Your task to perform on an android device: Search for flights from Zurich to Buenos aires Image 0: 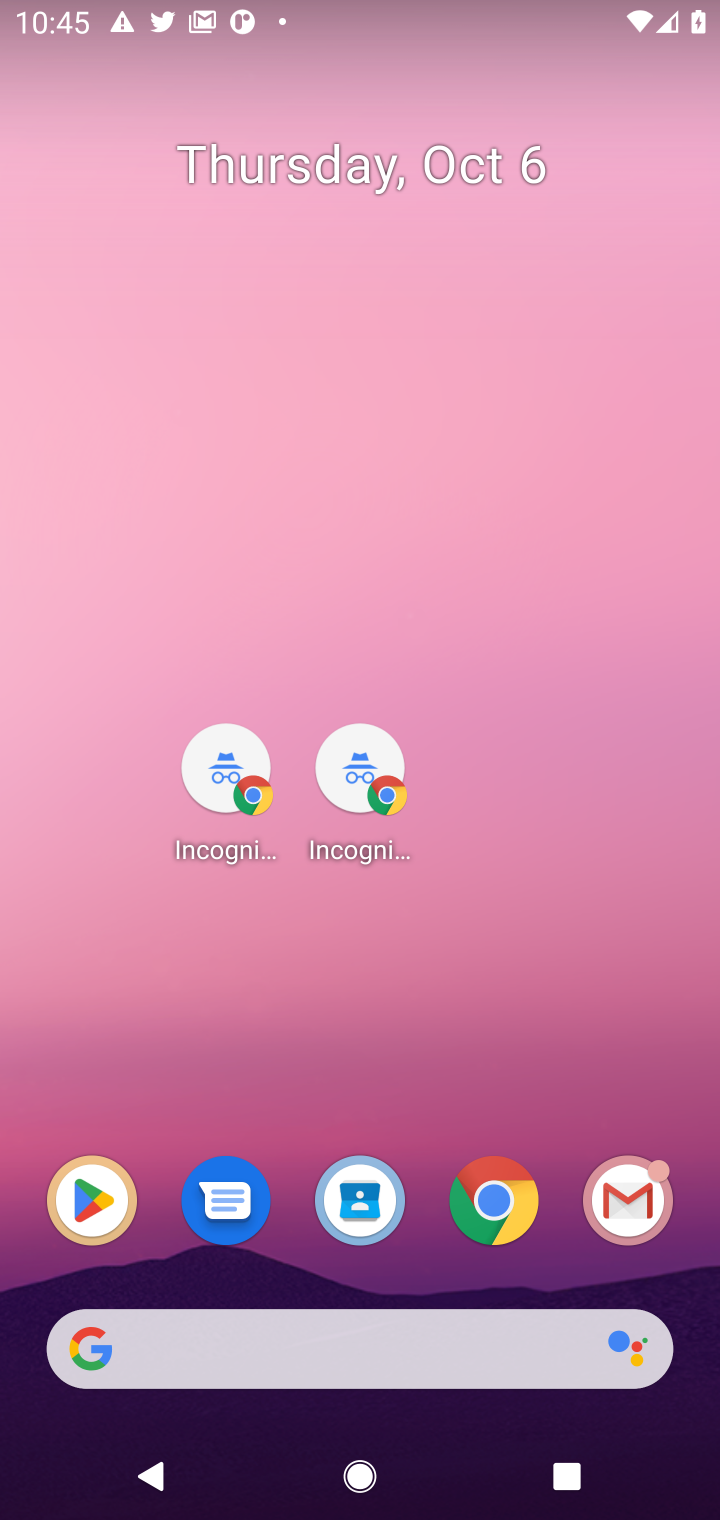
Step 0: click (510, 1198)
Your task to perform on an android device: Search for flights from Zurich to Buenos aires Image 1: 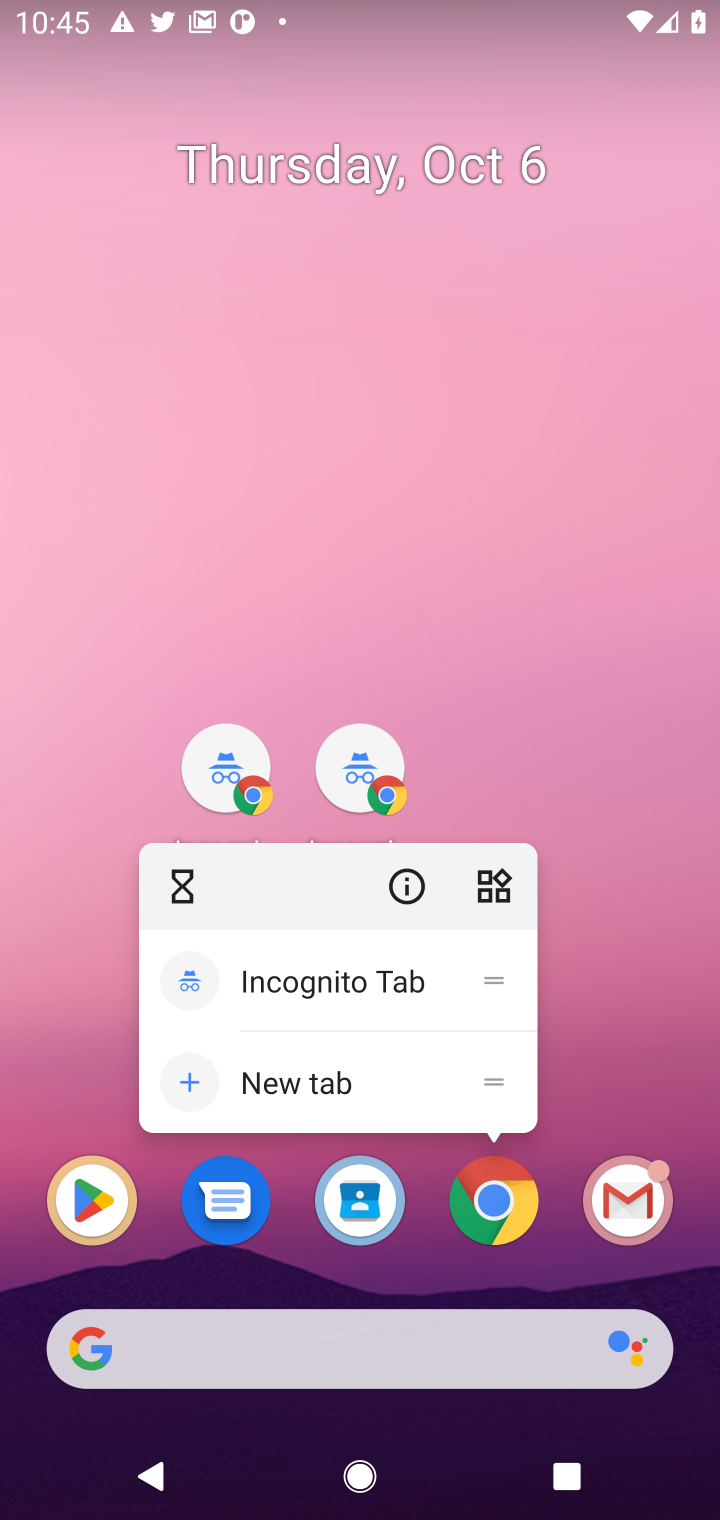
Step 1: press home button
Your task to perform on an android device: Search for flights from Zurich to Buenos aires Image 2: 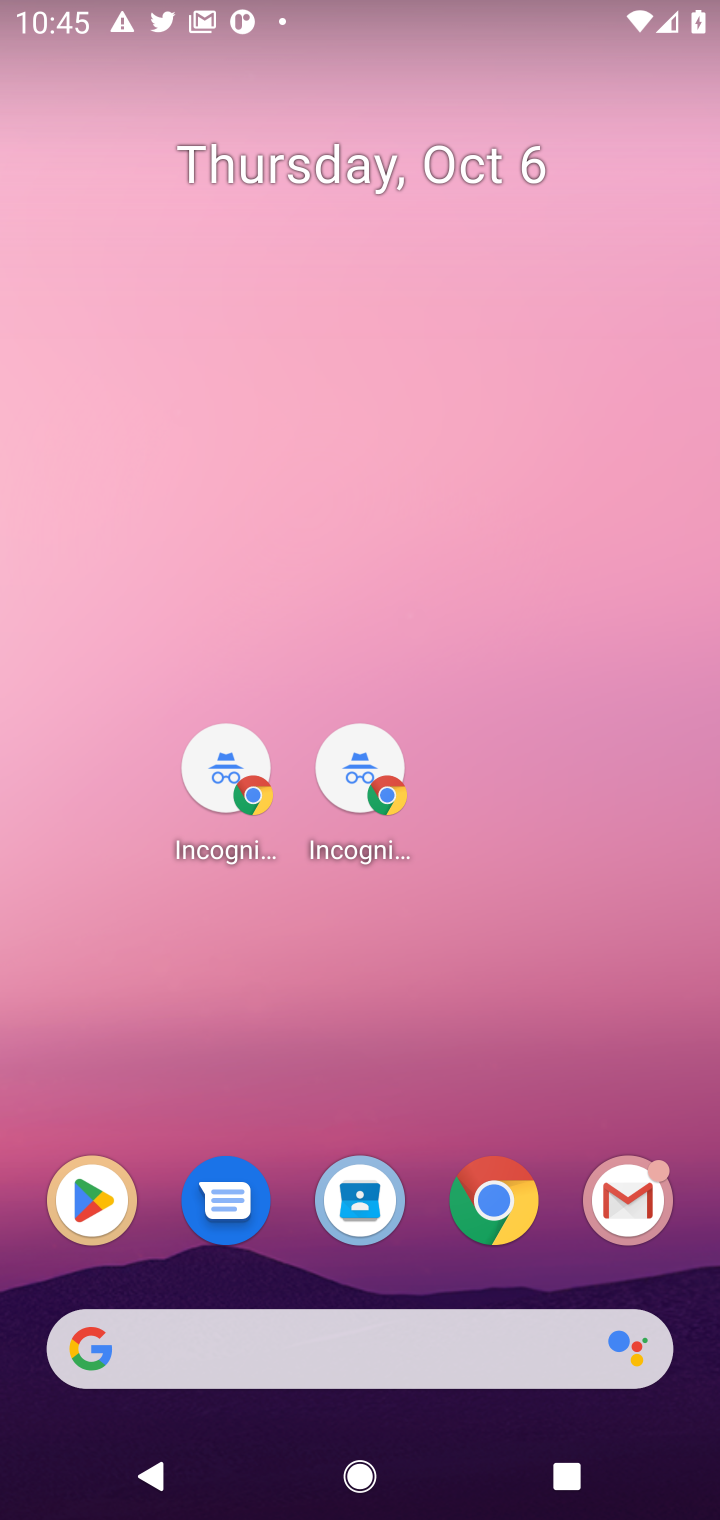
Step 2: press home button
Your task to perform on an android device: Search for flights from Zurich to Buenos aires Image 3: 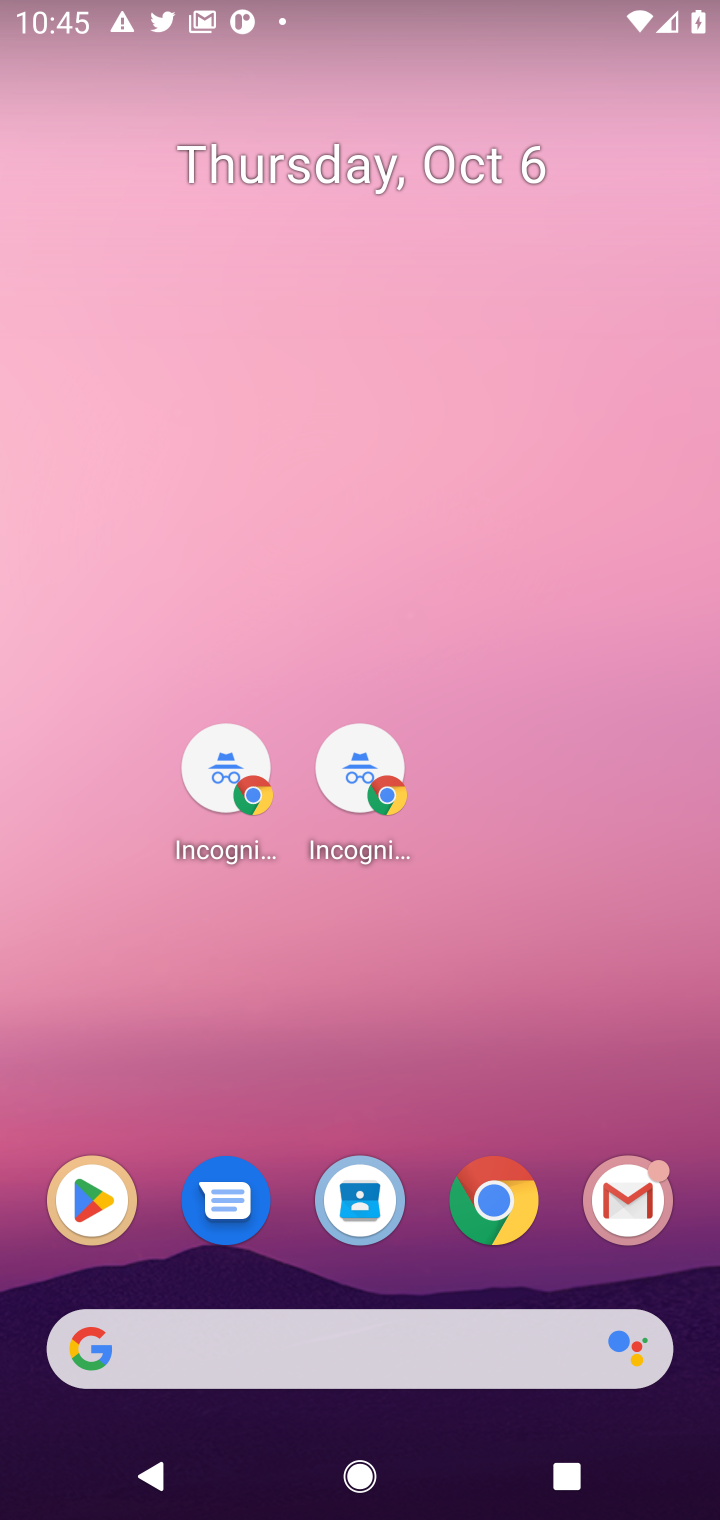
Step 3: click (476, 1242)
Your task to perform on an android device: Search for flights from Zurich to Buenos aires Image 4: 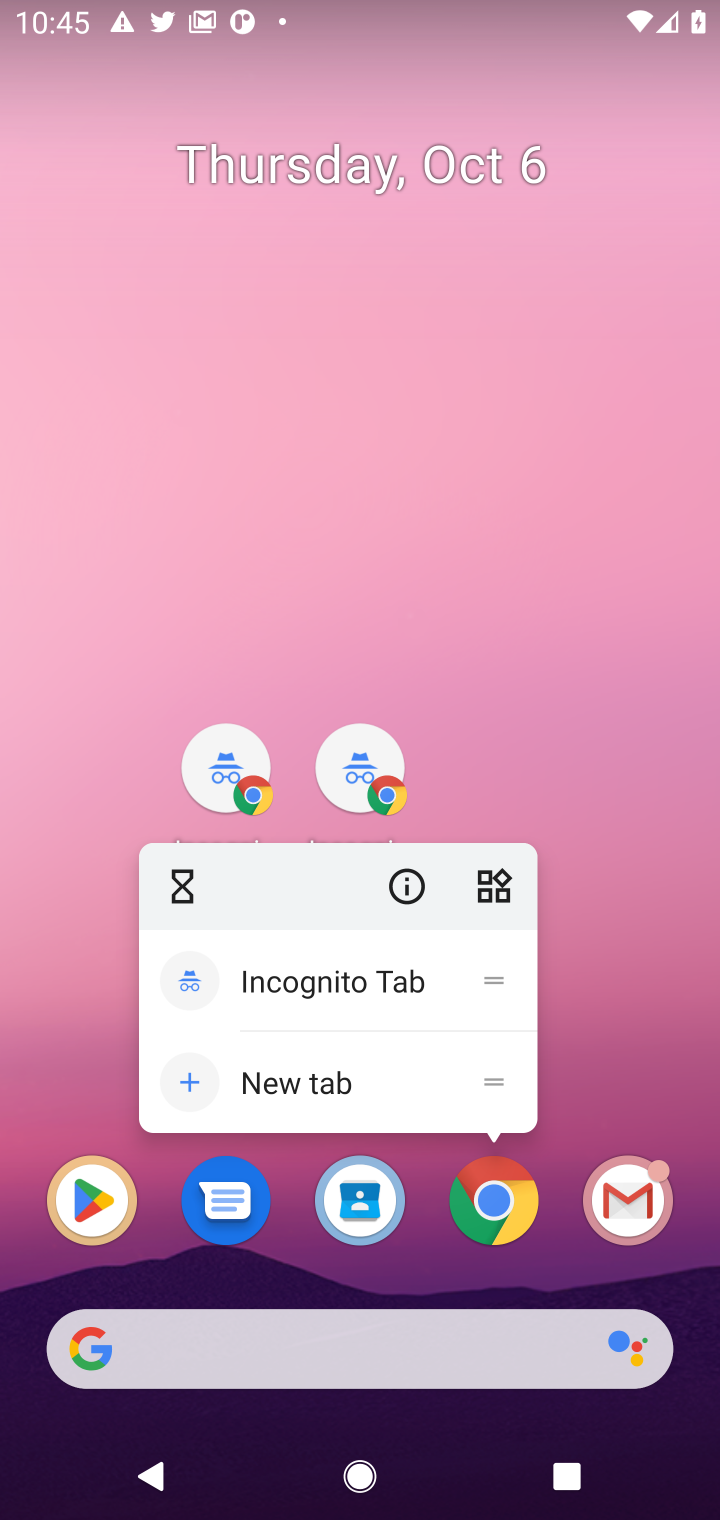
Step 4: press home button
Your task to perform on an android device: Search for flights from Zurich to Buenos aires Image 5: 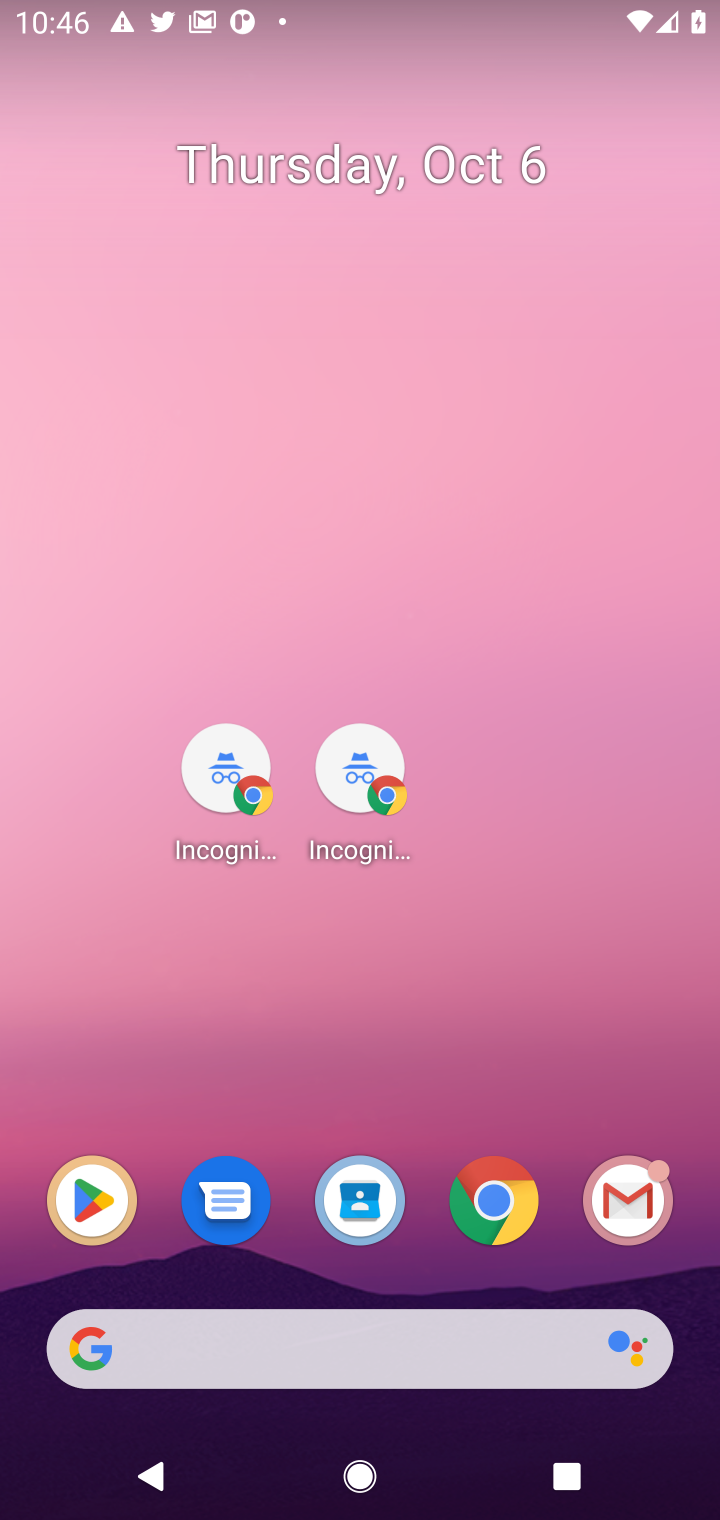
Step 5: click (491, 1184)
Your task to perform on an android device: Search for flights from Zurich to Buenos aires Image 6: 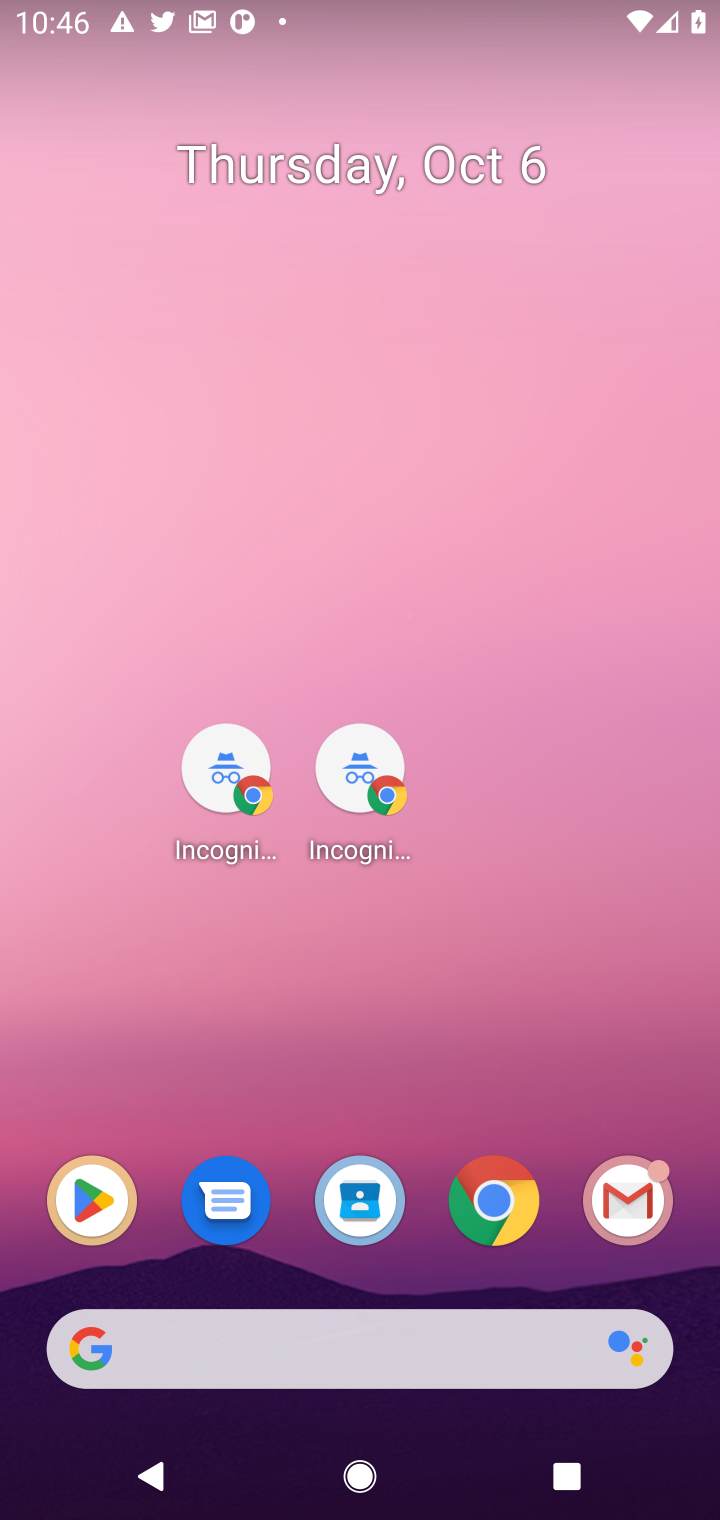
Step 6: click (499, 1184)
Your task to perform on an android device: Search for flights from Zurich to Buenos aires Image 7: 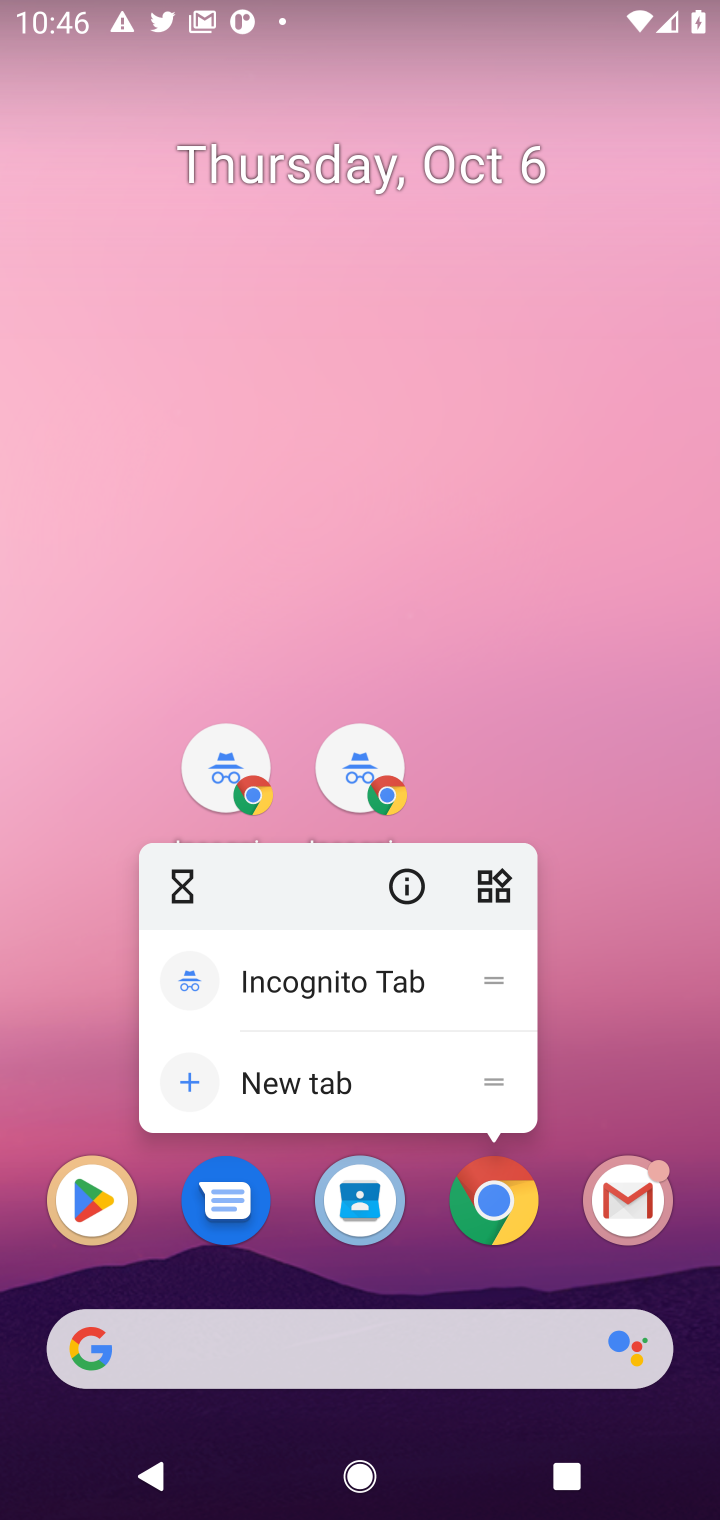
Step 7: press back button
Your task to perform on an android device: Search for flights from Zurich to Buenos aires Image 8: 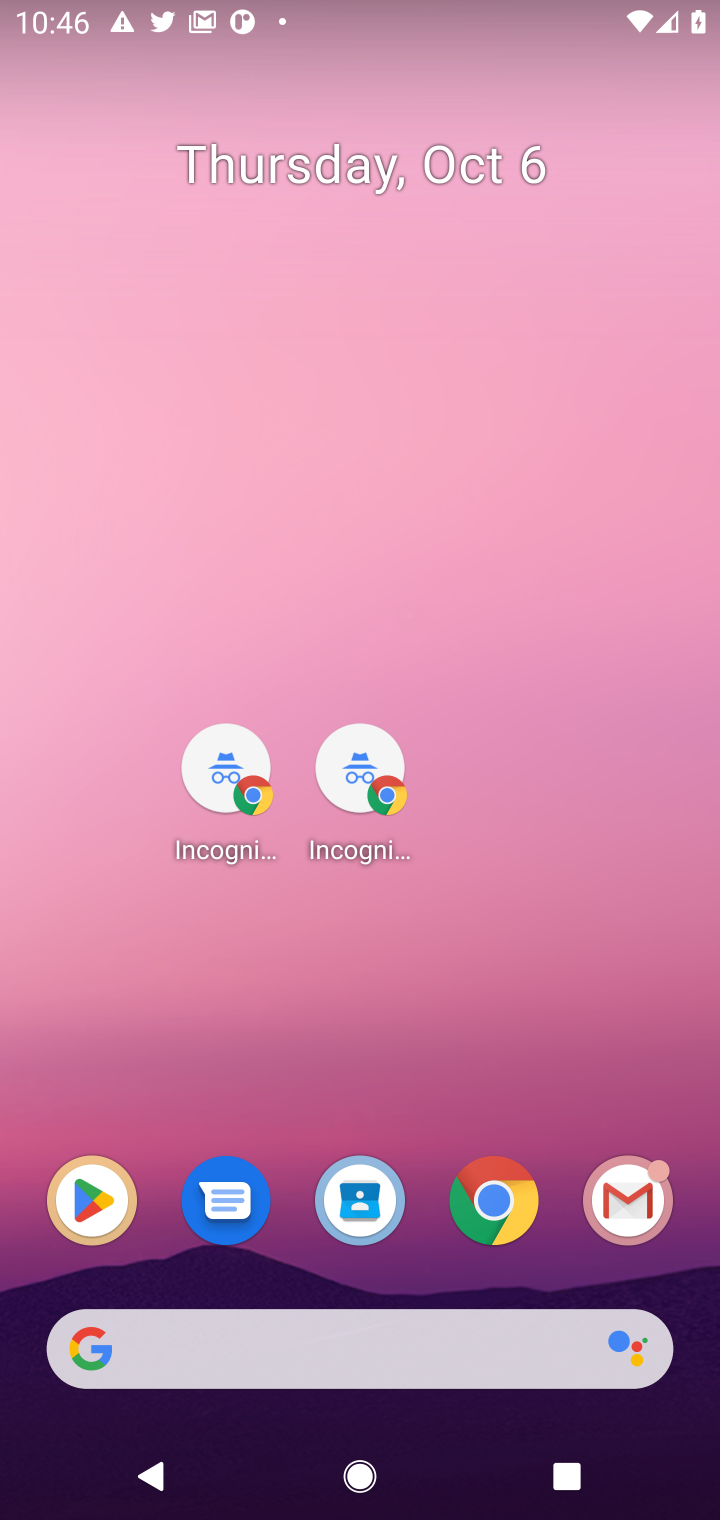
Step 8: press back button
Your task to perform on an android device: Search for flights from Zurich to Buenos aires Image 9: 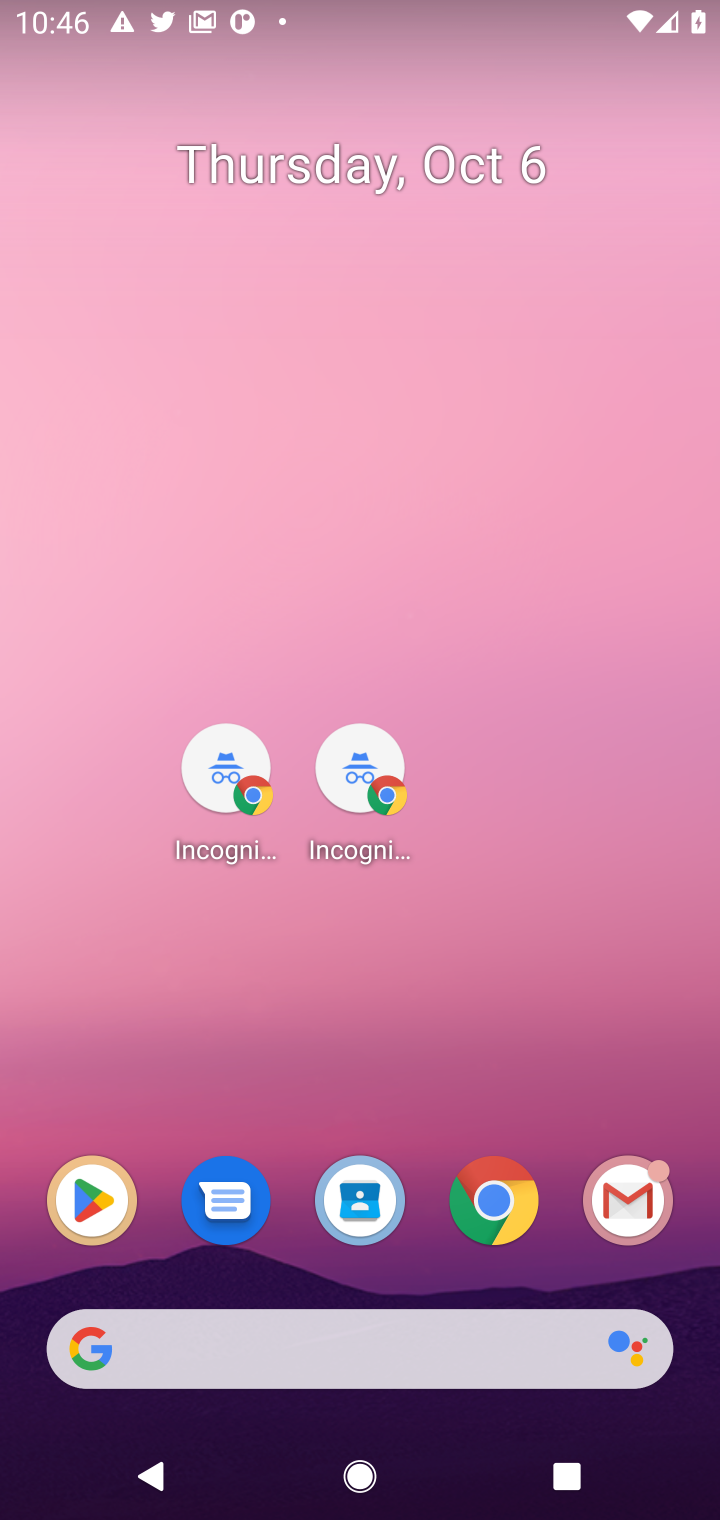
Step 9: press back button
Your task to perform on an android device: Search for flights from Zurich to Buenos aires Image 10: 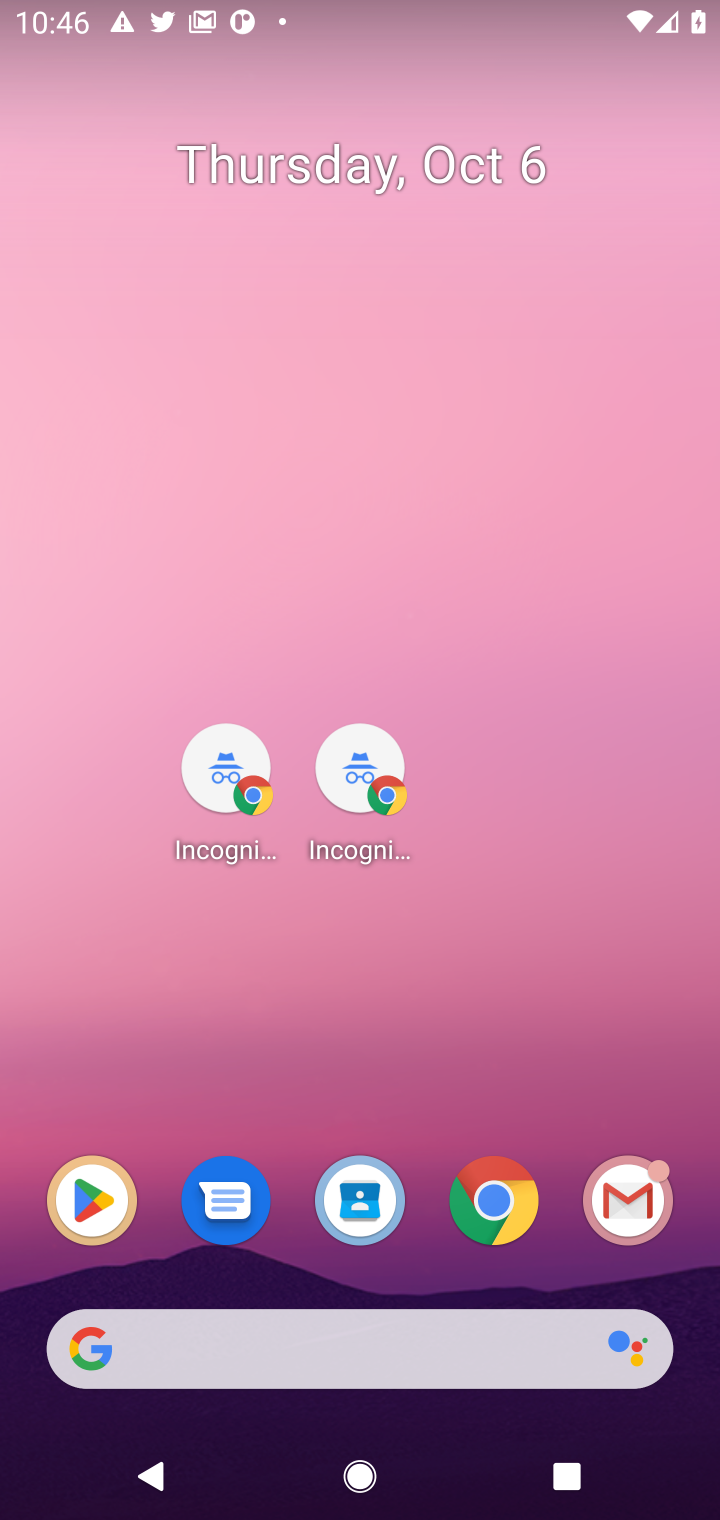
Step 10: click (485, 1232)
Your task to perform on an android device: Search for flights from Zurich to Buenos aires Image 11: 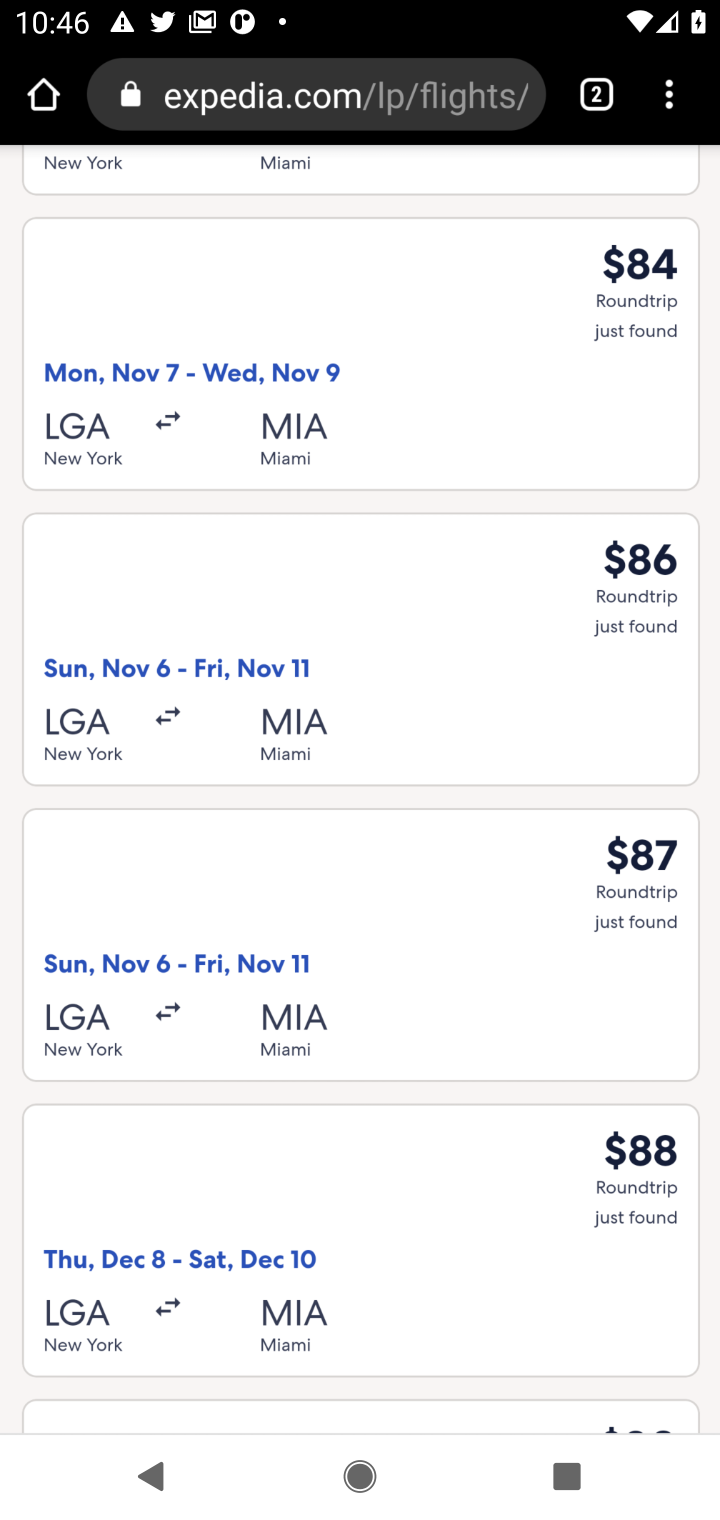
Step 11: click (487, 1231)
Your task to perform on an android device: Search for flights from Zurich to Buenos aires Image 12: 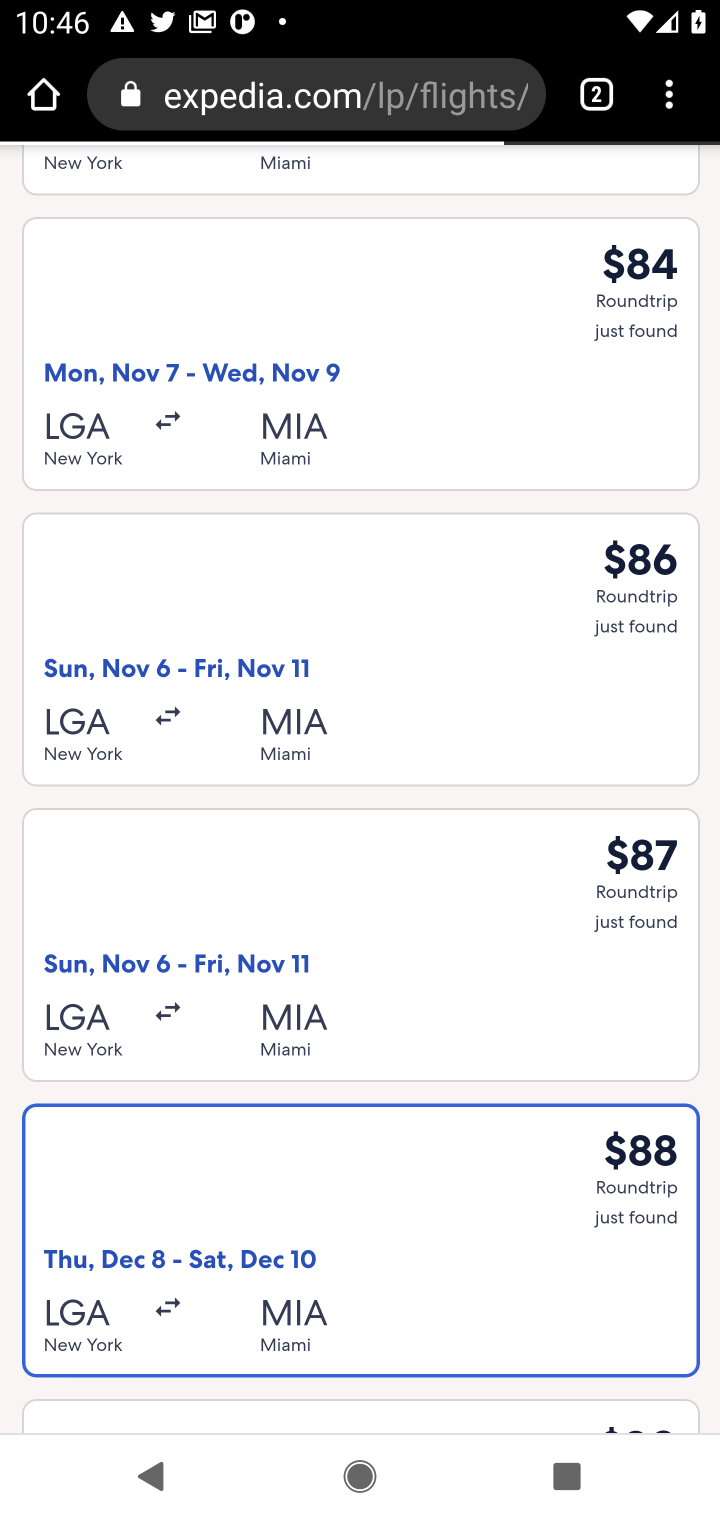
Step 12: click (368, 96)
Your task to perform on an android device: Search for flights from Zurich to Buenos aires Image 13: 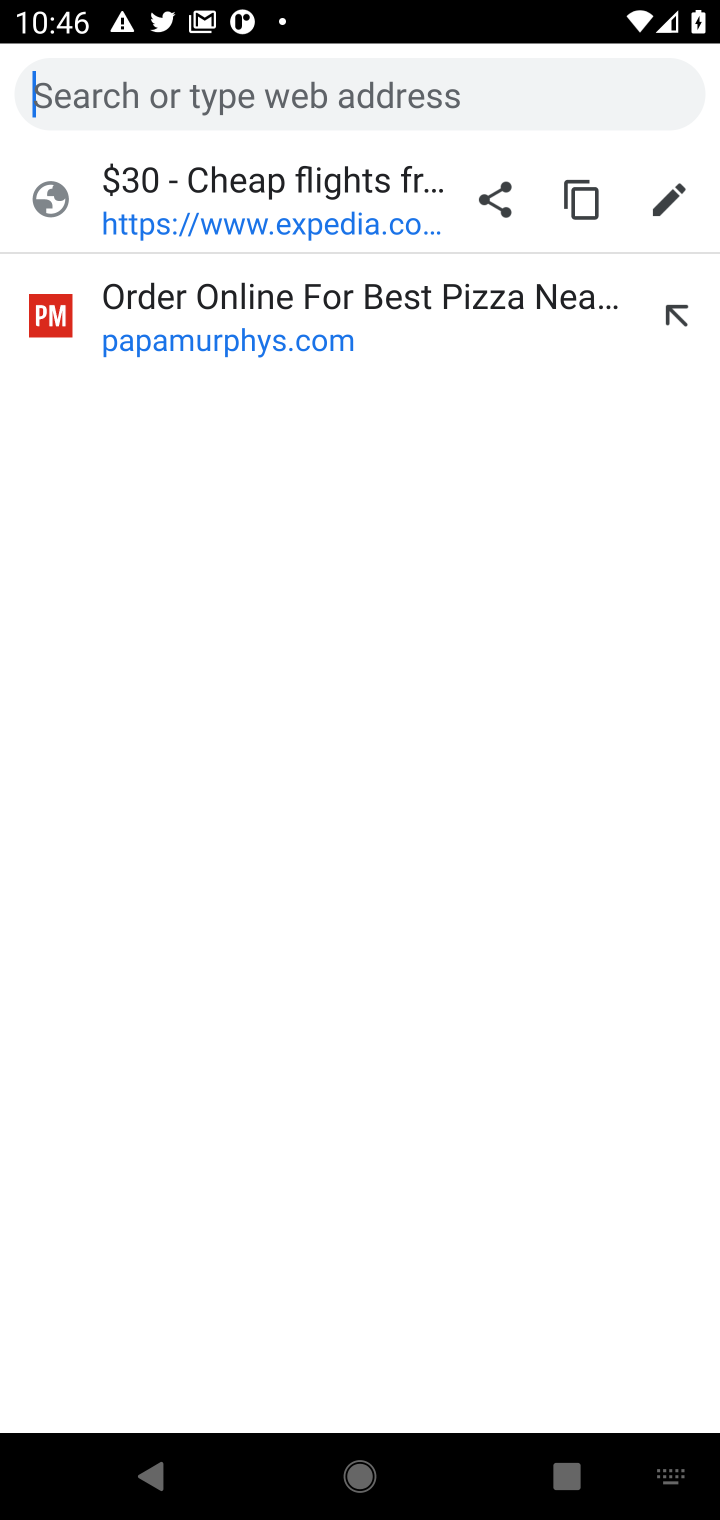
Step 13: type "flight from zurich to buenos aires"
Your task to perform on an android device: Search for flights from Zurich to Buenos aires Image 14: 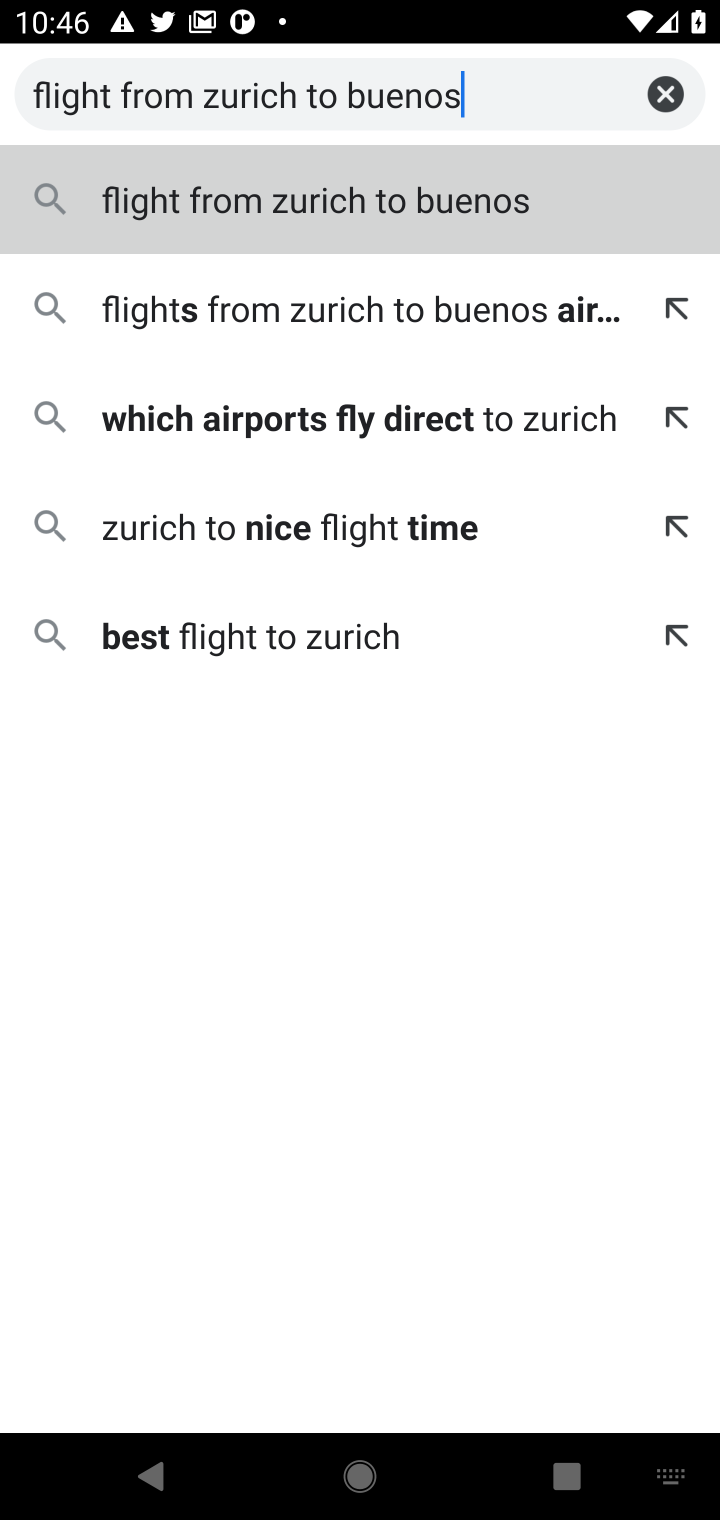
Step 14: click (302, 319)
Your task to perform on an android device: Search for flights from Zurich to Buenos aires Image 15: 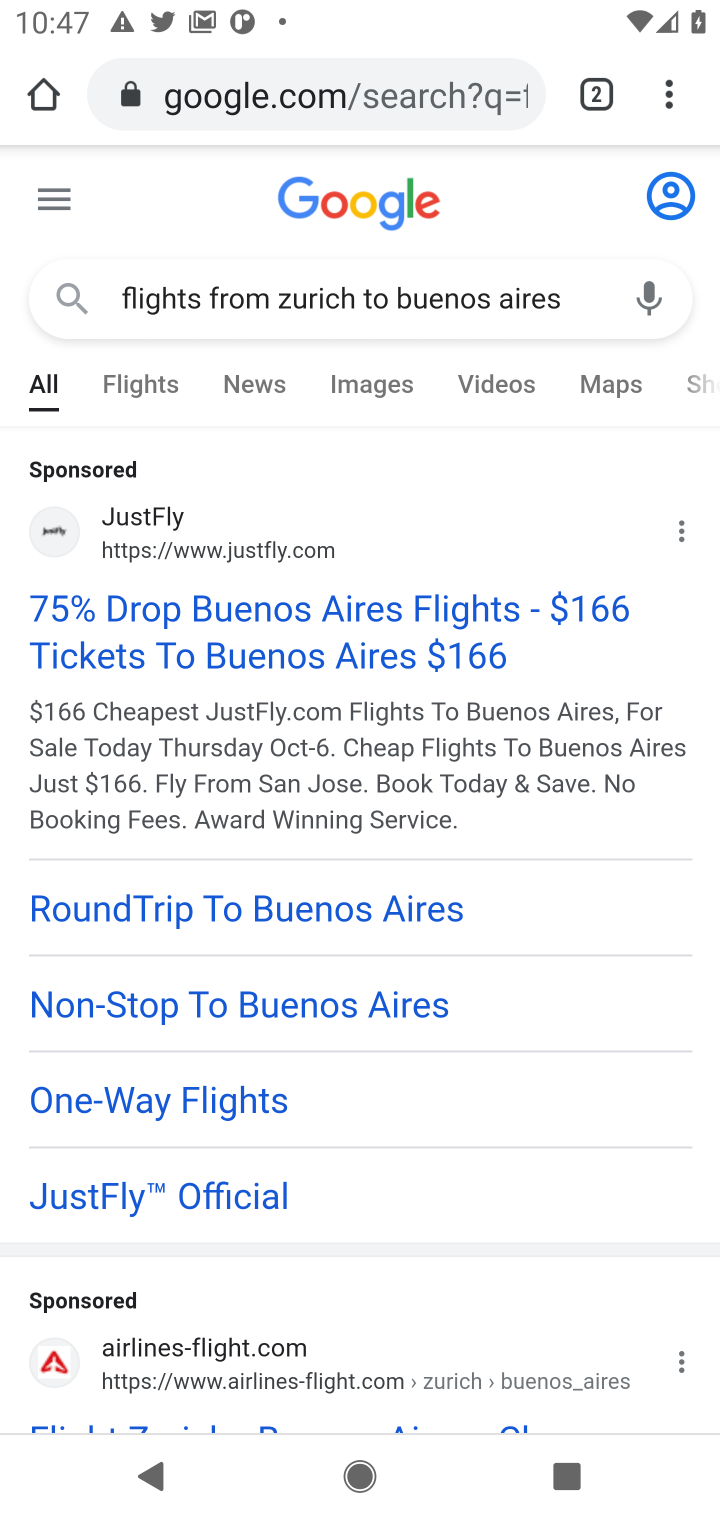
Step 15: click (147, 1341)
Your task to perform on an android device: Search for flights from Zurich to Buenos aires Image 16: 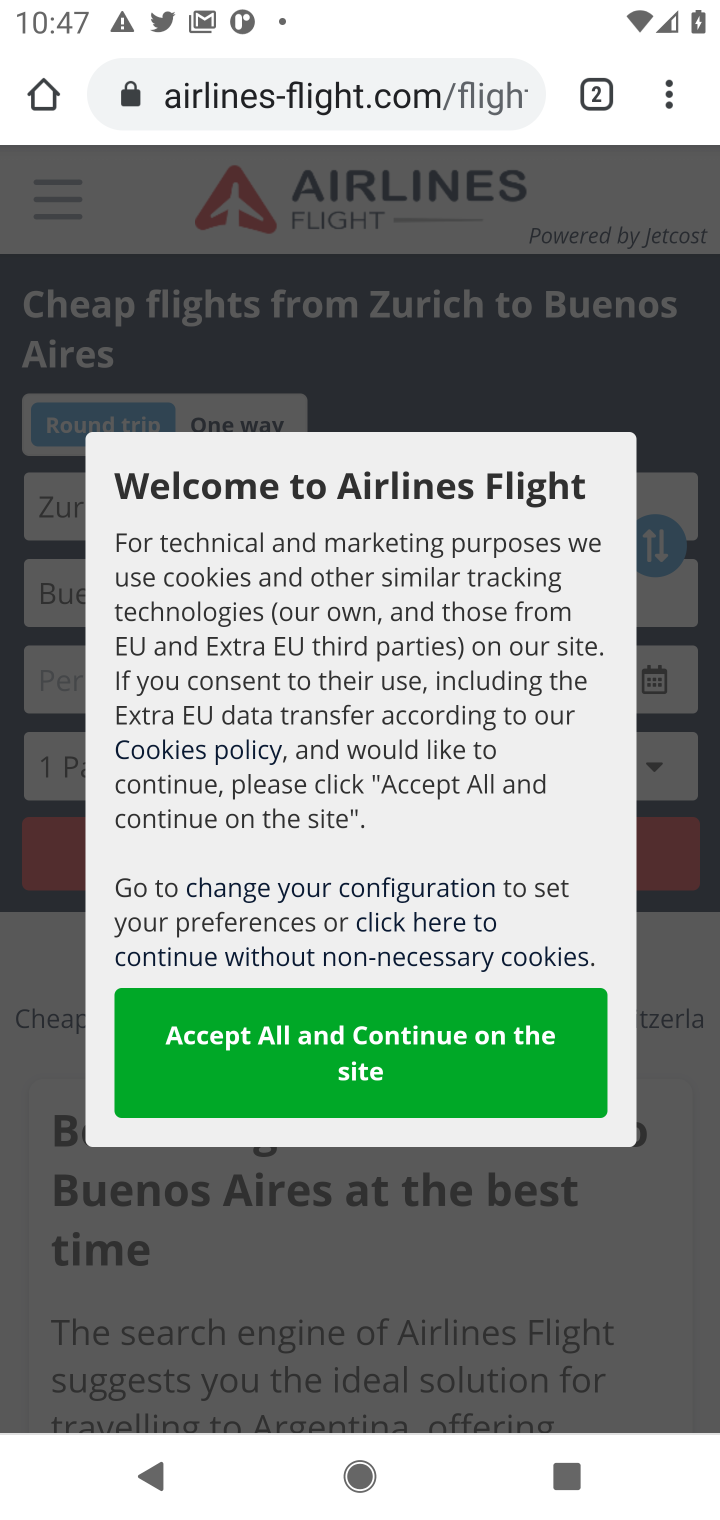
Step 16: click (392, 1055)
Your task to perform on an android device: Search for flights from Zurich to Buenos aires Image 17: 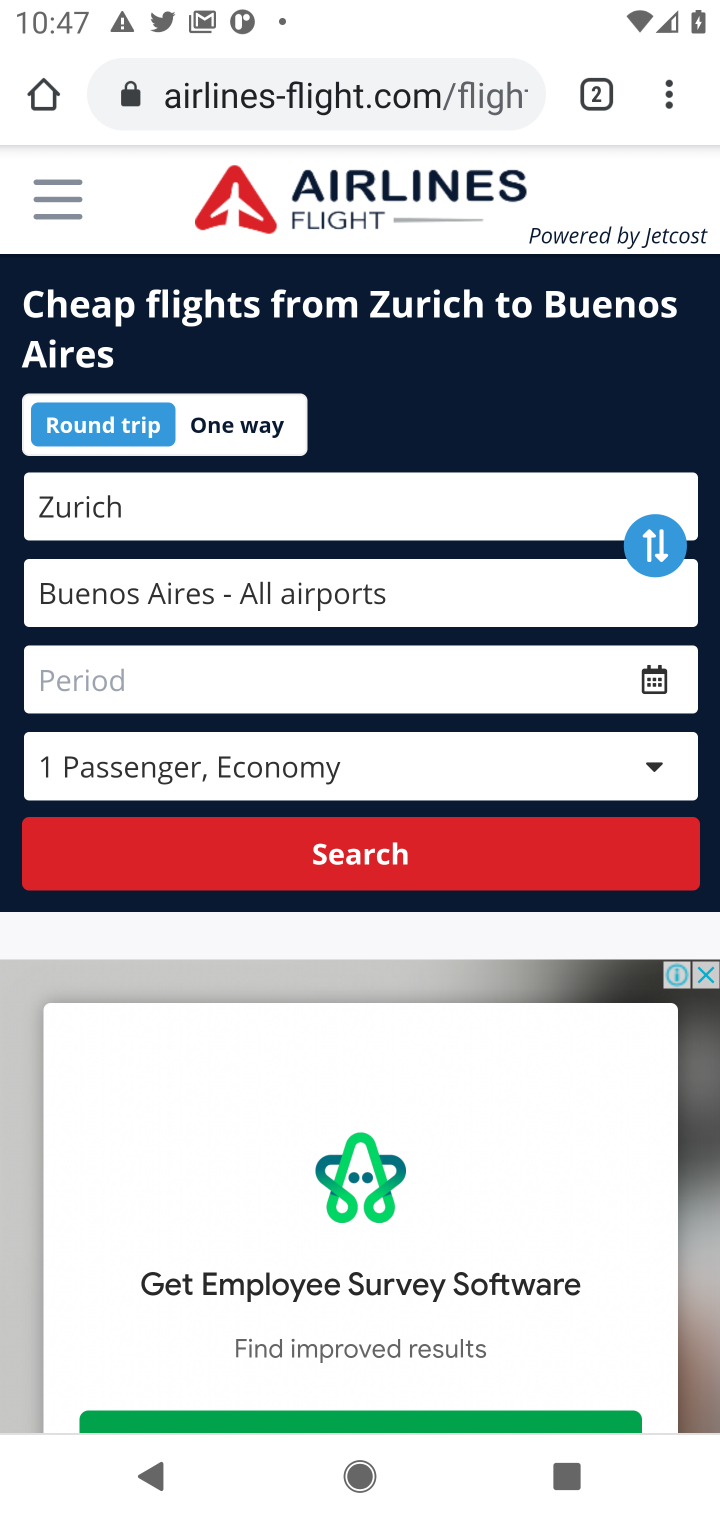
Step 17: click (93, 504)
Your task to perform on an android device: Search for flights from Zurich to Buenos aires Image 18: 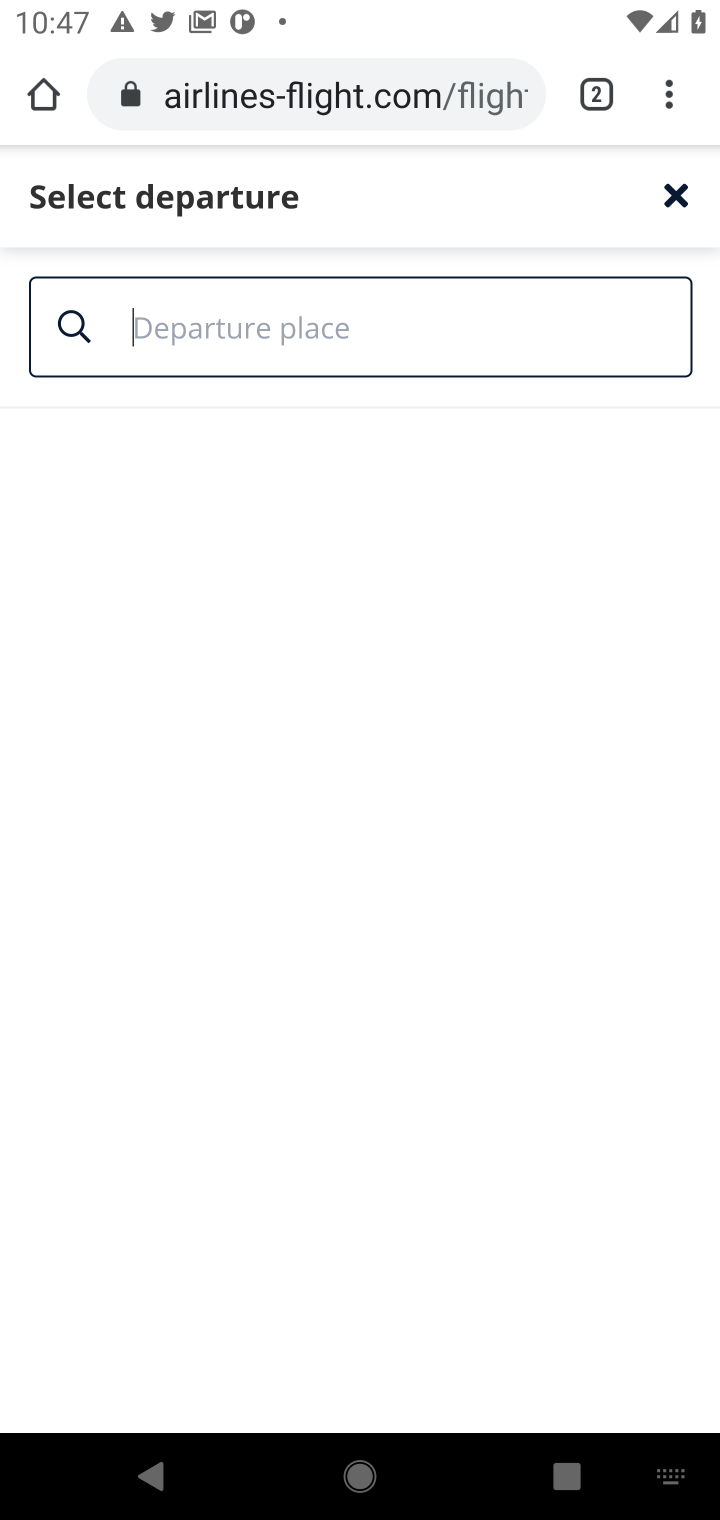
Step 18: click (671, 186)
Your task to perform on an android device: Search for flights from Zurich to Buenos aires Image 19: 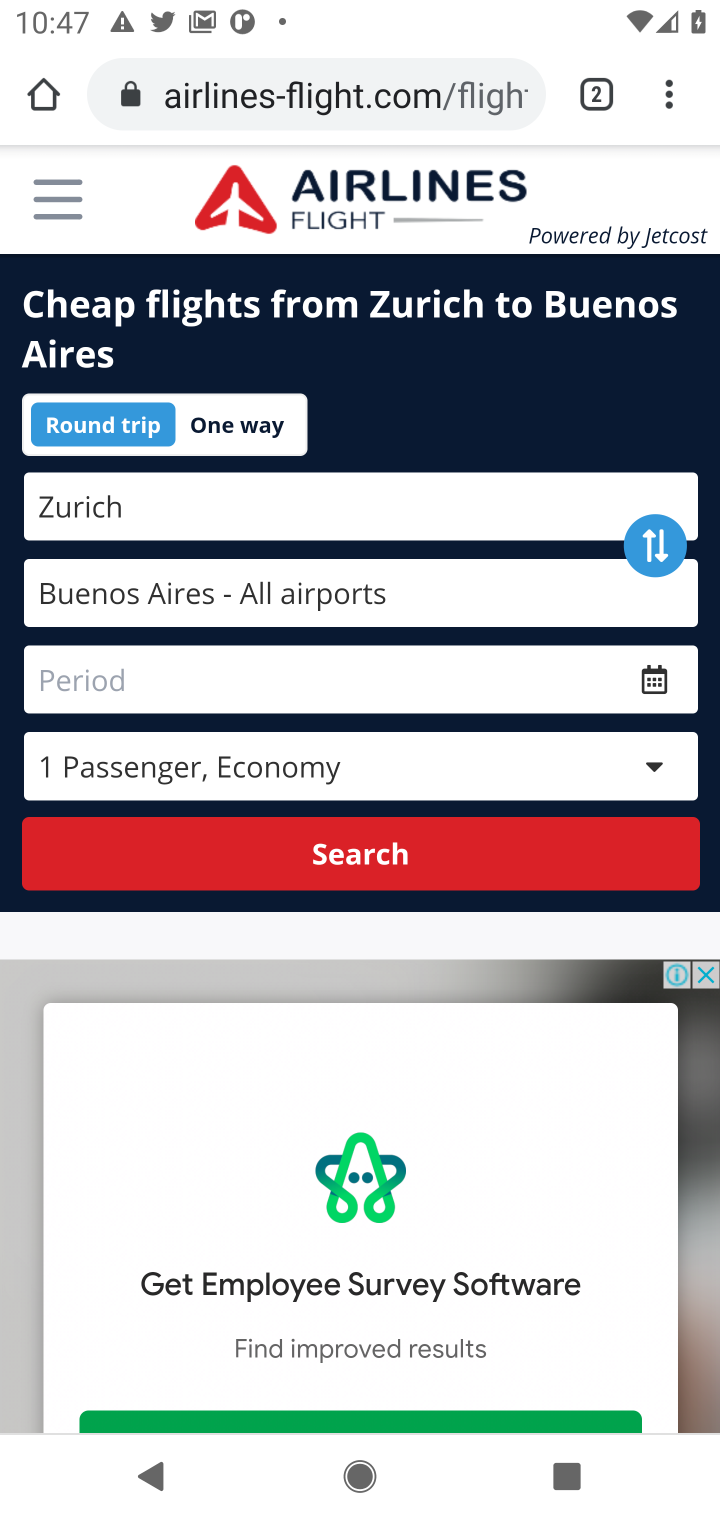
Step 19: click (644, 758)
Your task to perform on an android device: Search for flights from Zurich to Buenos aires Image 20: 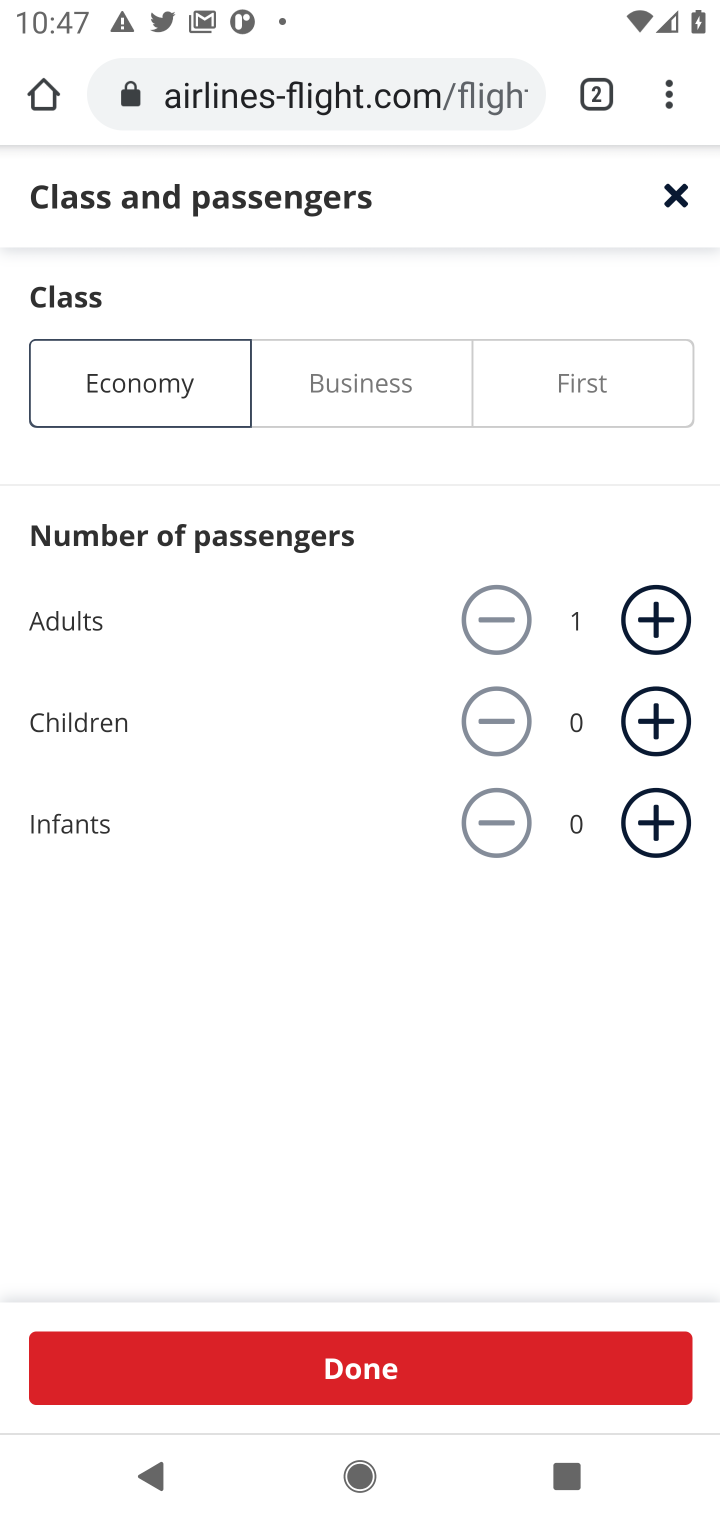
Step 20: click (654, 611)
Your task to perform on an android device: Search for flights from Zurich to Buenos aires Image 21: 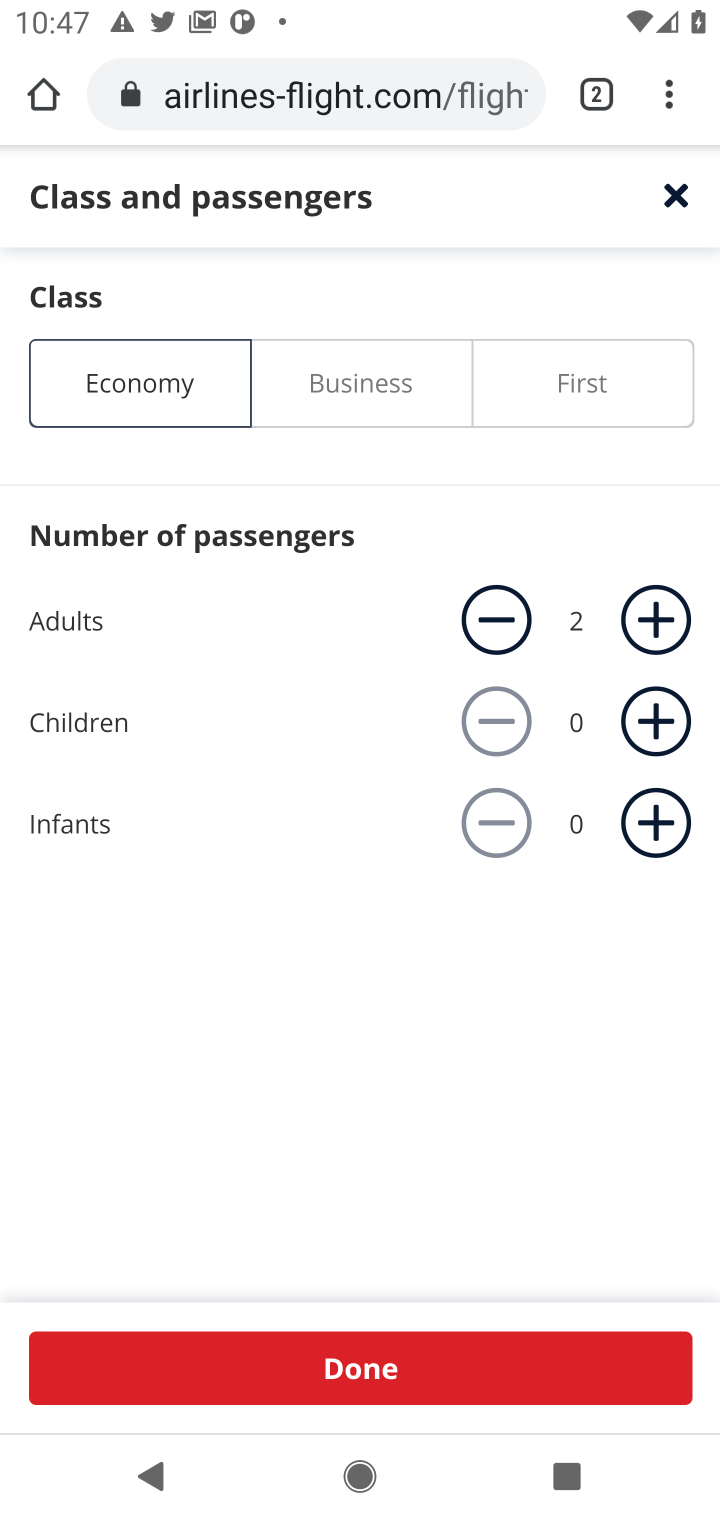
Step 21: click (369, 1365)
Your task to perform on an android device: Search for flights from Zurich to Buenos aires Image 22: 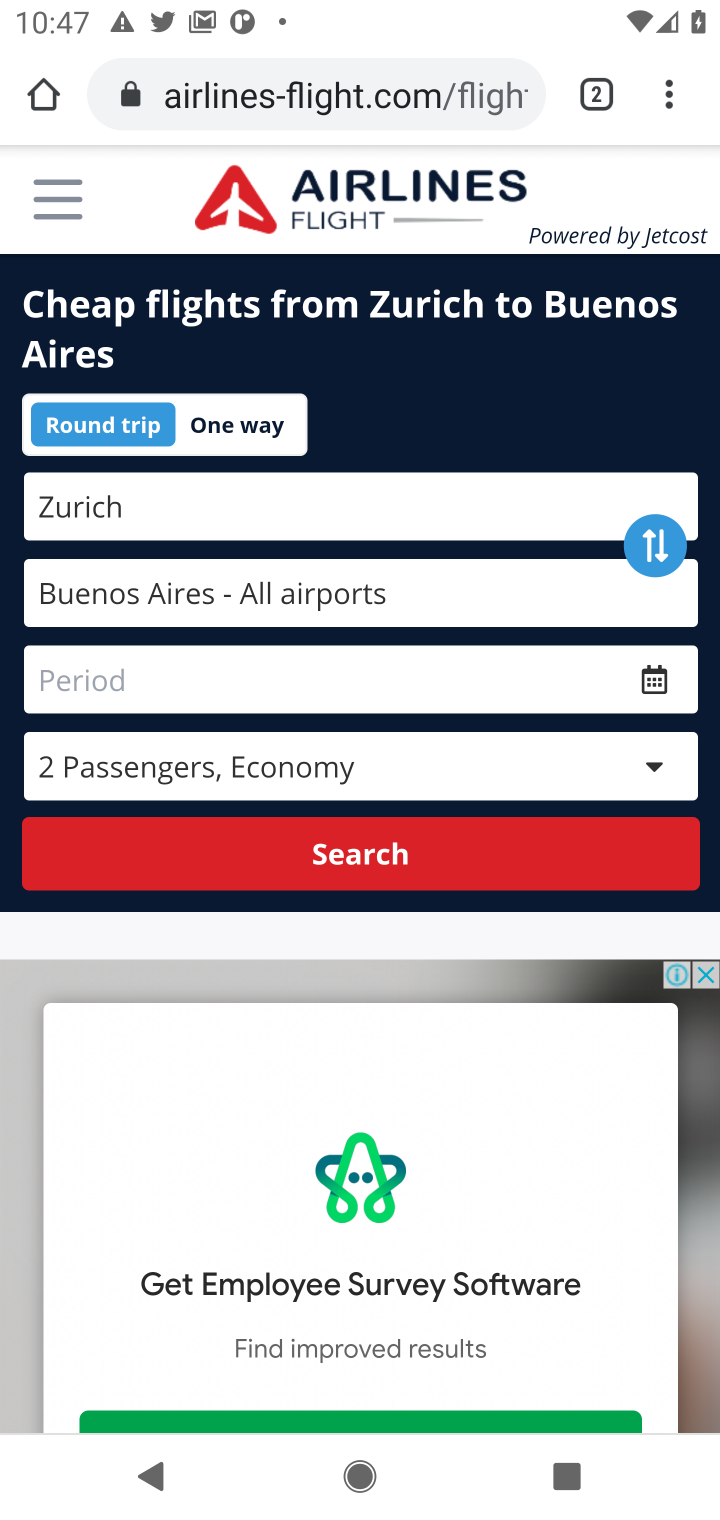
Step 22: click (710, 975)
Your task to perform on an android device: Search for flights from Zurich to Buenos aires Image 23: 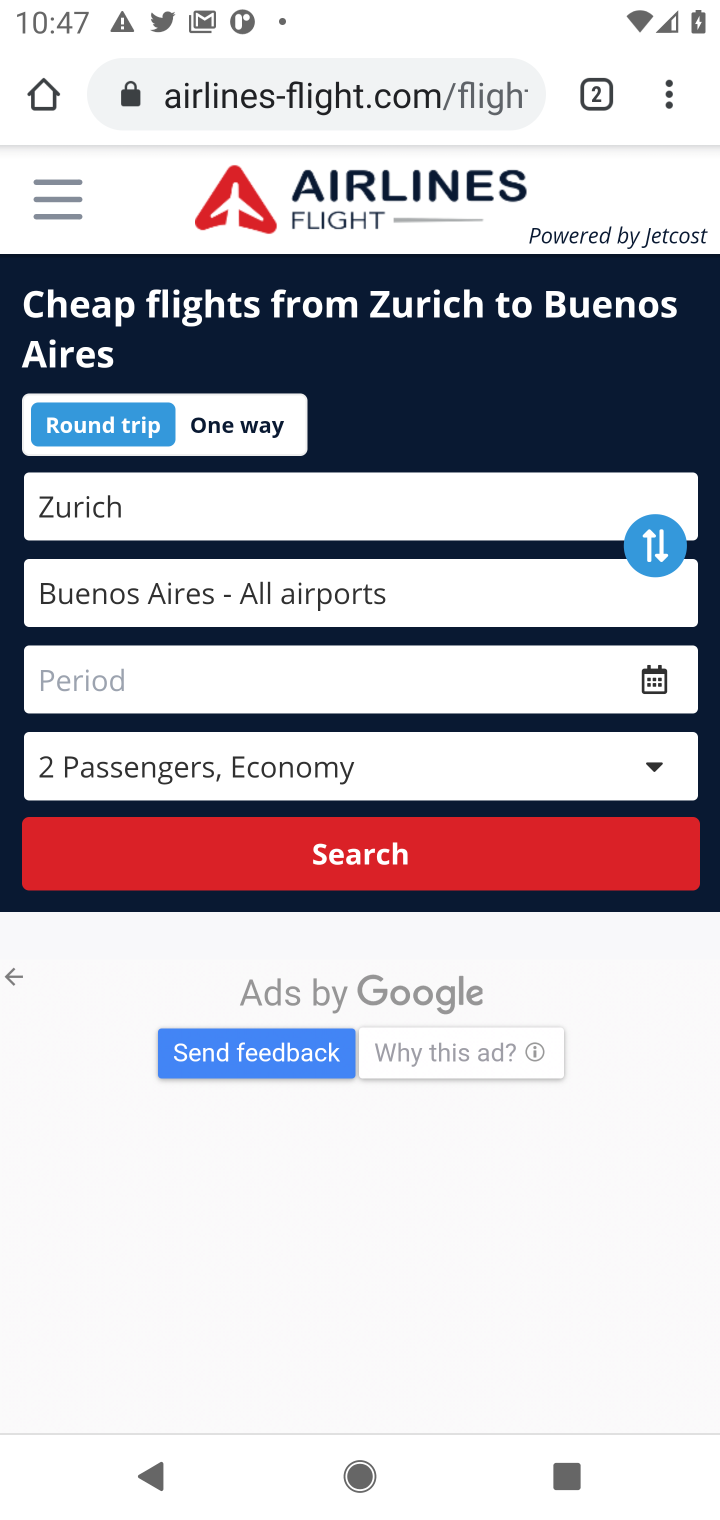
Step 23: click (317, 844)
Your task to perform on an android device: Search for flights from Zurich to Buenos aires Image 24: 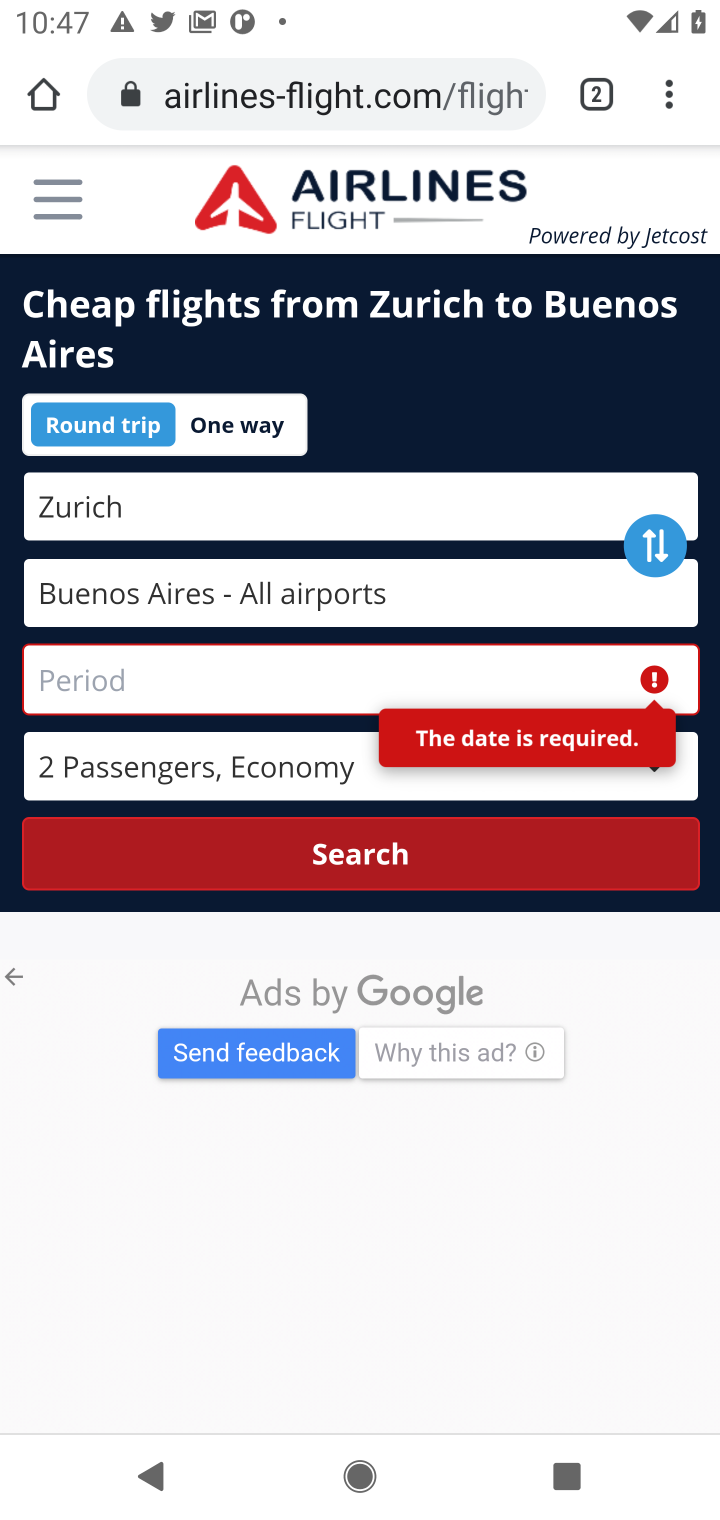
Step 24: click (142, 677)
Your task to perform on an android device: Search for flights from Zurich to Buenos aires Image 25: 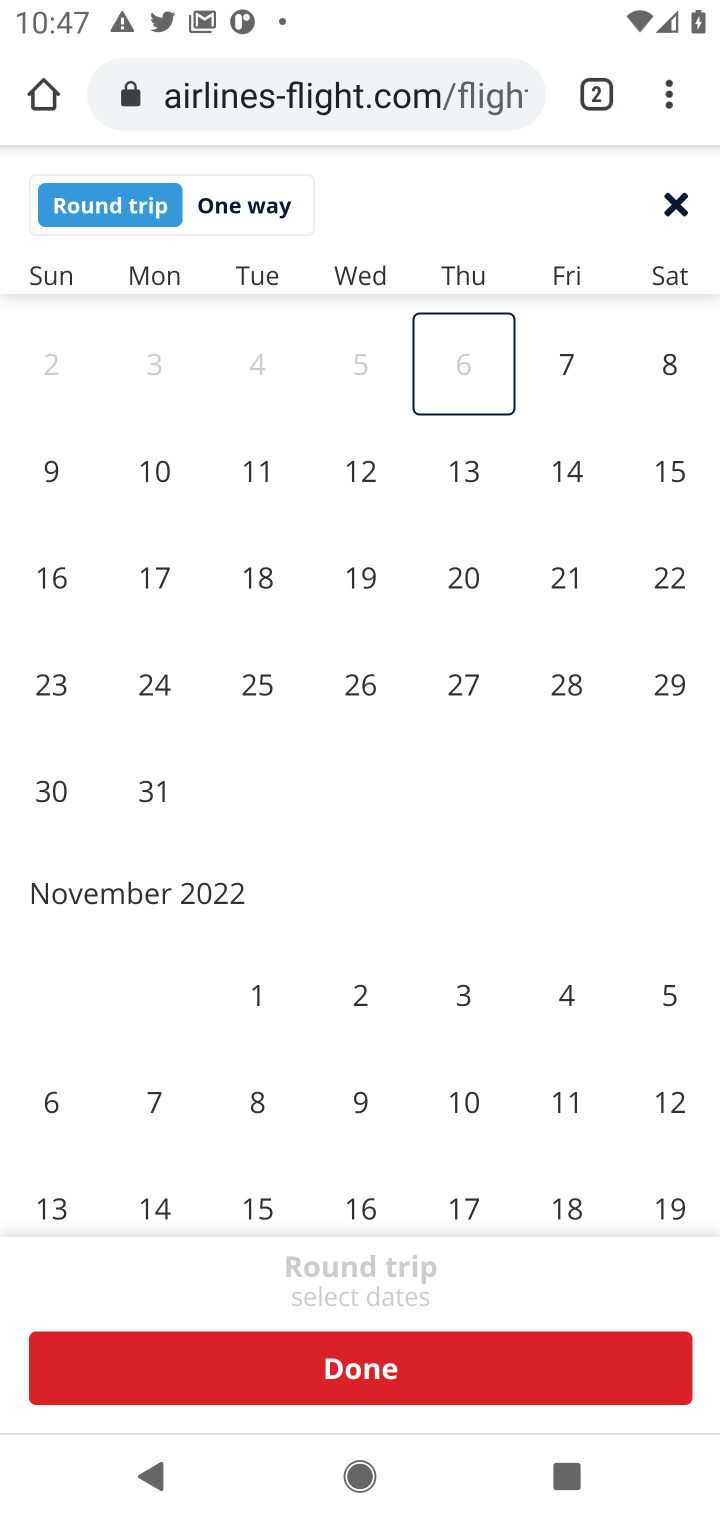
Step 25: click (461, 467)
Your task to perform on an android device: Search for flights from Zurich to Buenos aires Image 26: 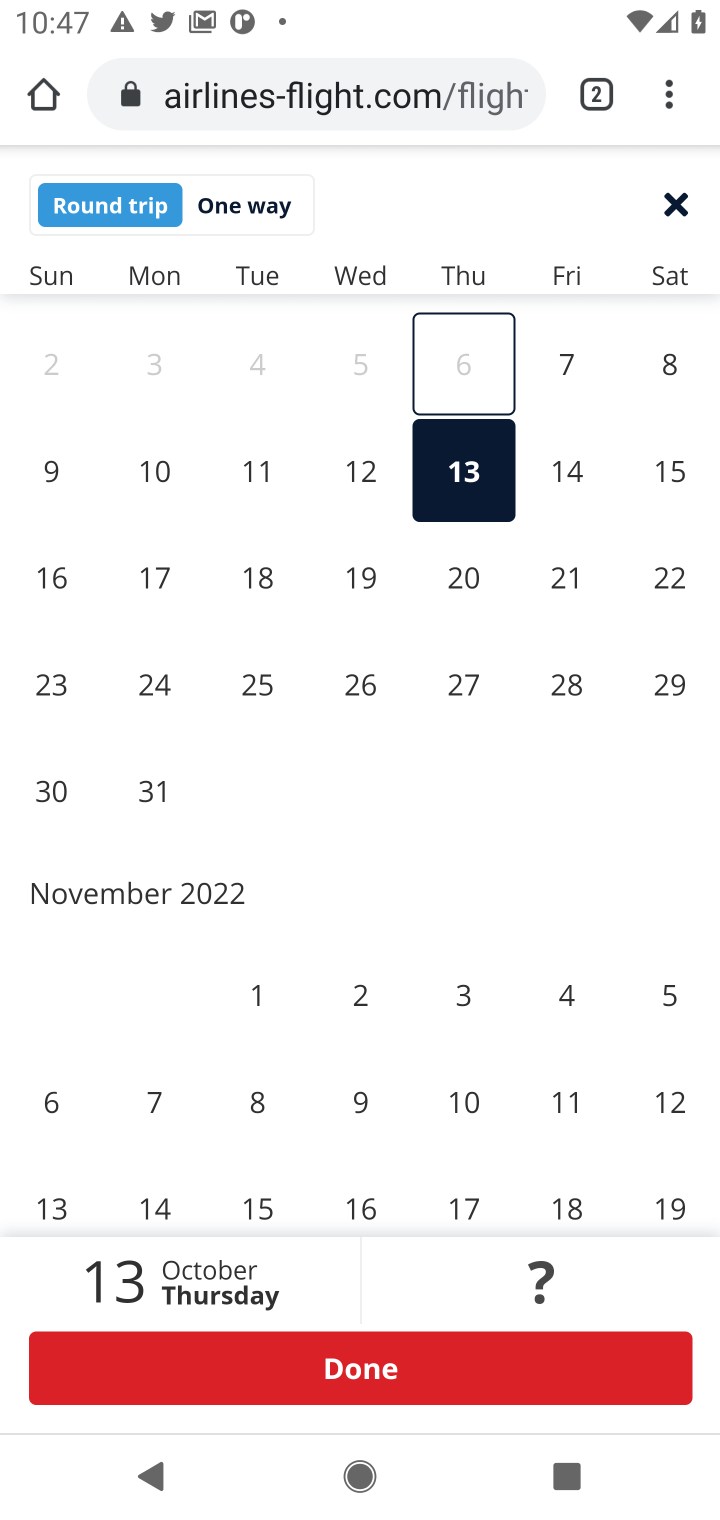
Step 26: click (236, 198)
Your task to perform on an android device: Search for flights from Zurich to Buenos aires Image 27: 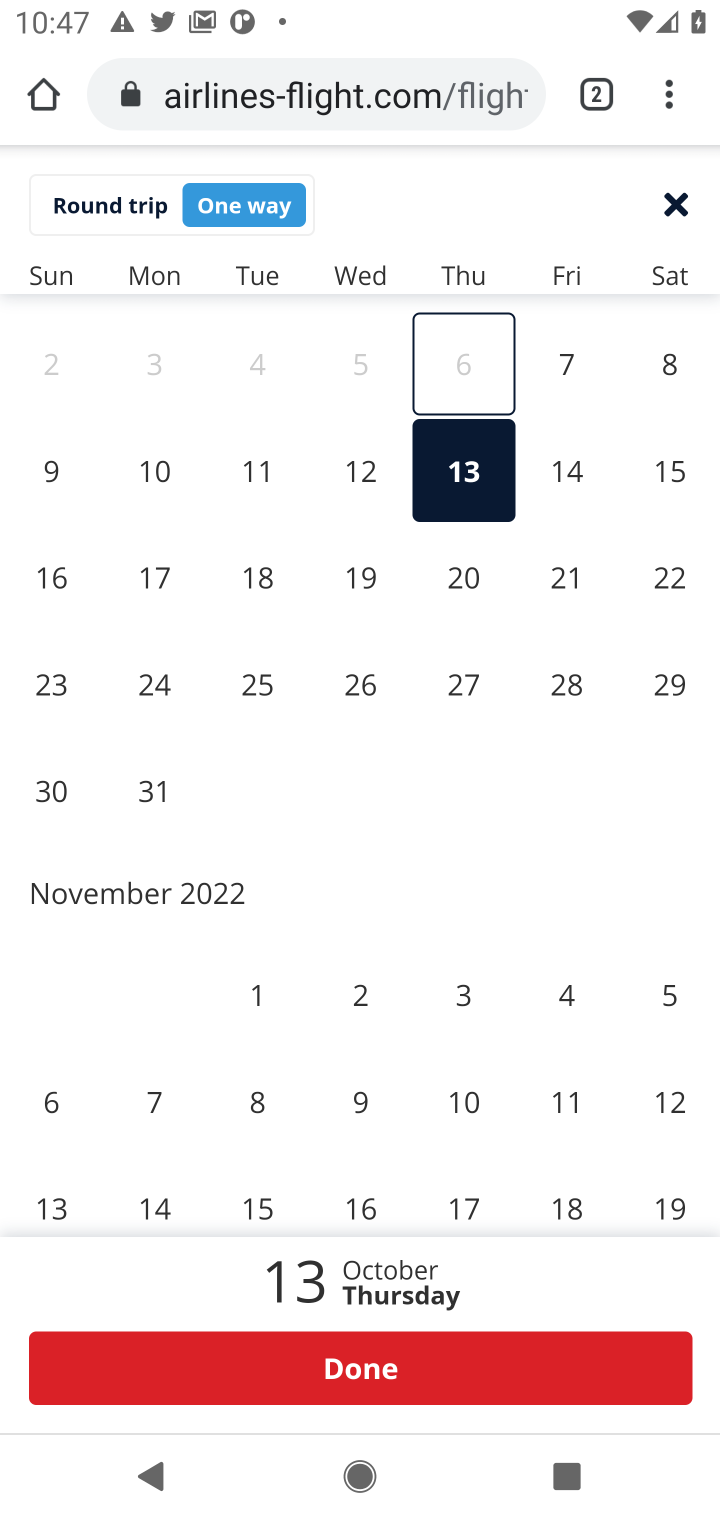
Step 27: click (285, 1369)
Your task to perform on an android device: Search for flights from Zurich to Buenos aires Image 28: 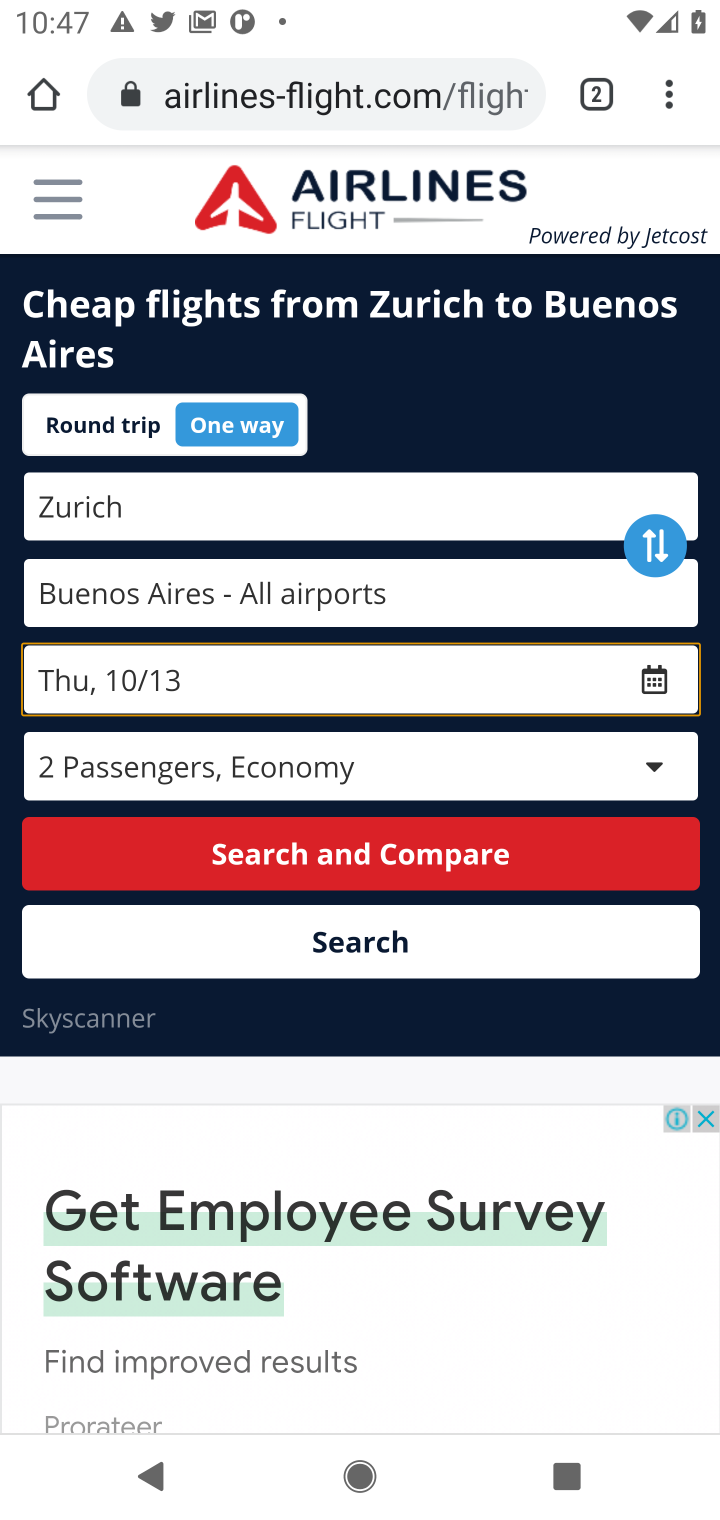
Step 28: click (377, 872)
Your task to perform on an android device: Search for flights from Zurich to Buenos aires Image 29: 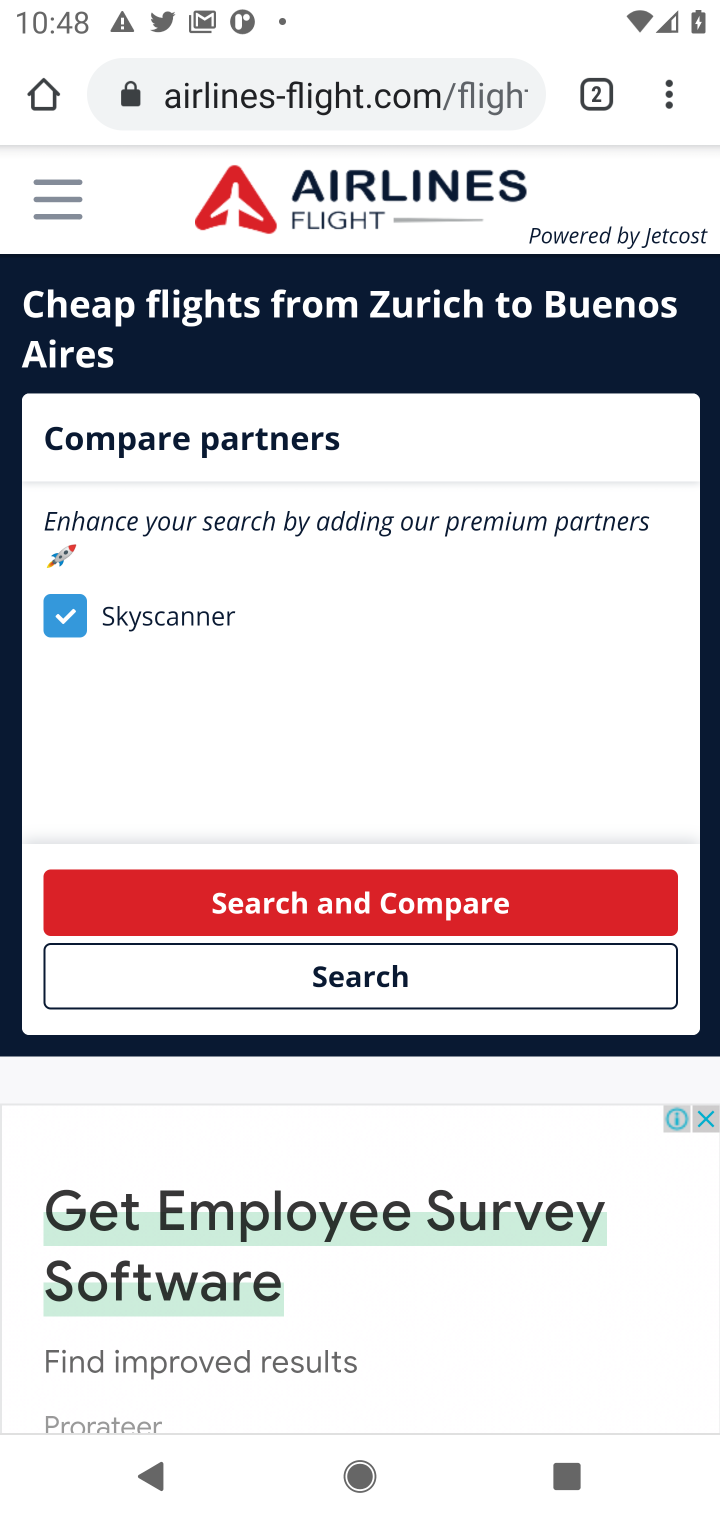
Step 29: click (341, 984)
Your task to perform on an android device: Search for flights from Zurich to Buenos aires Image 30: 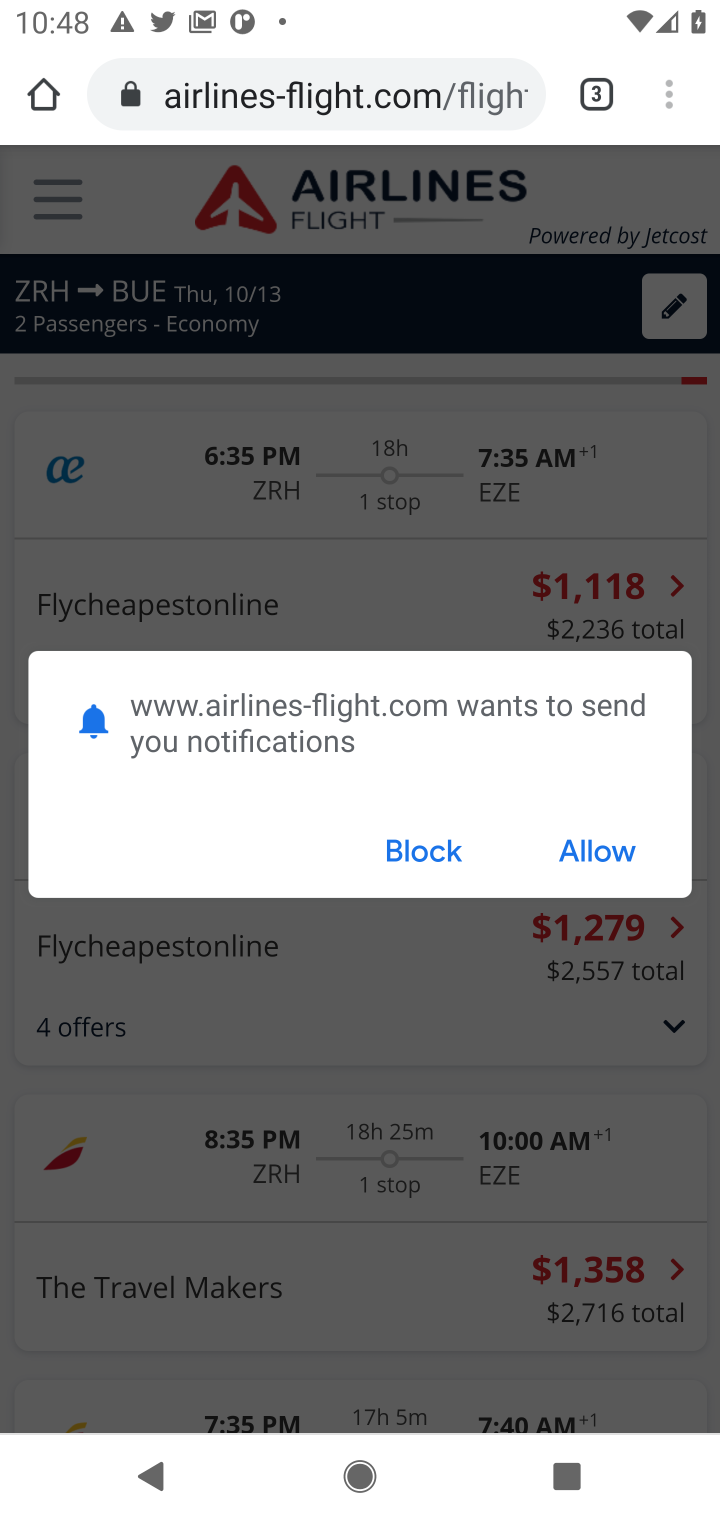
Step 30: click (567, 842)
Your task to perform on an android device: Search for flights from Zurich to Buenos aires Image 31: 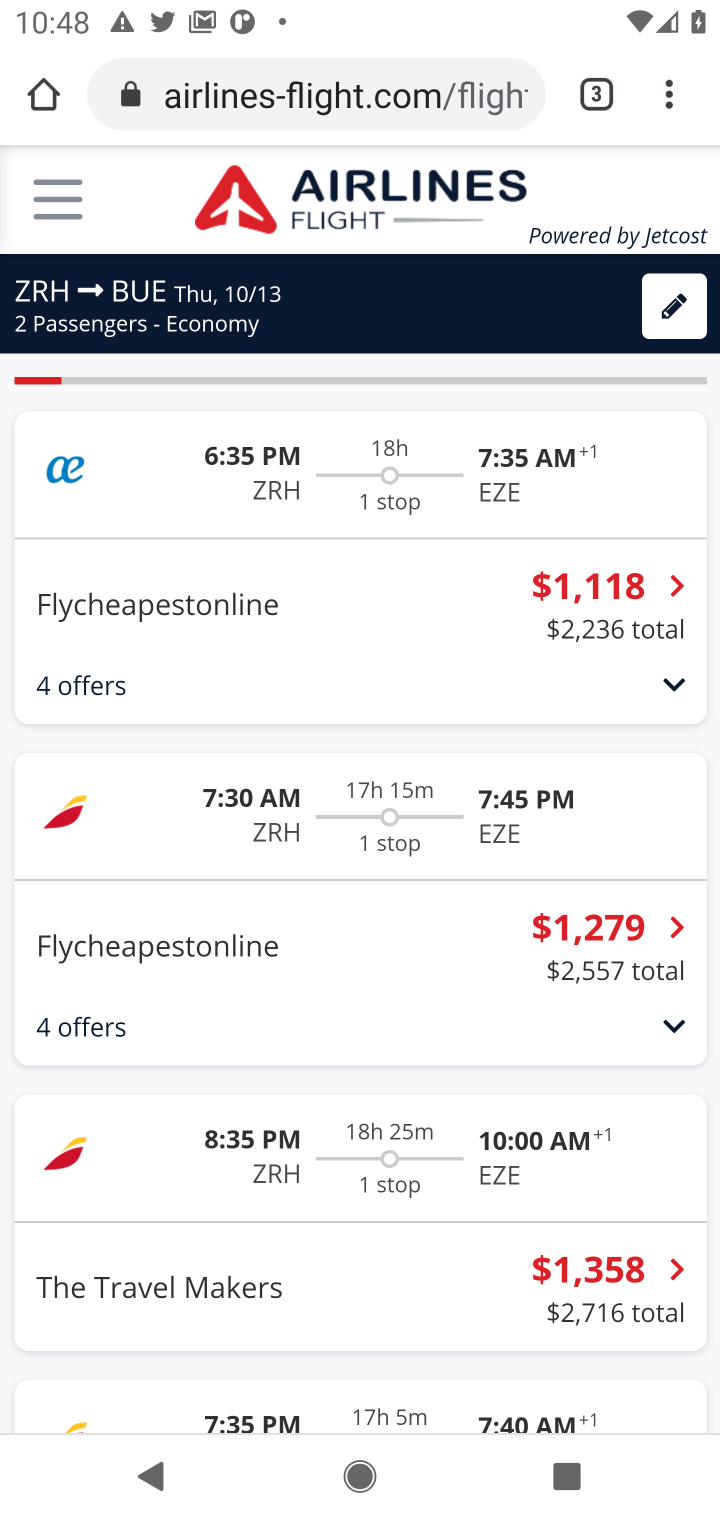
Step 31: task complete